Your task to perform on an android device: refresh tabs in the chrome app Image 0: 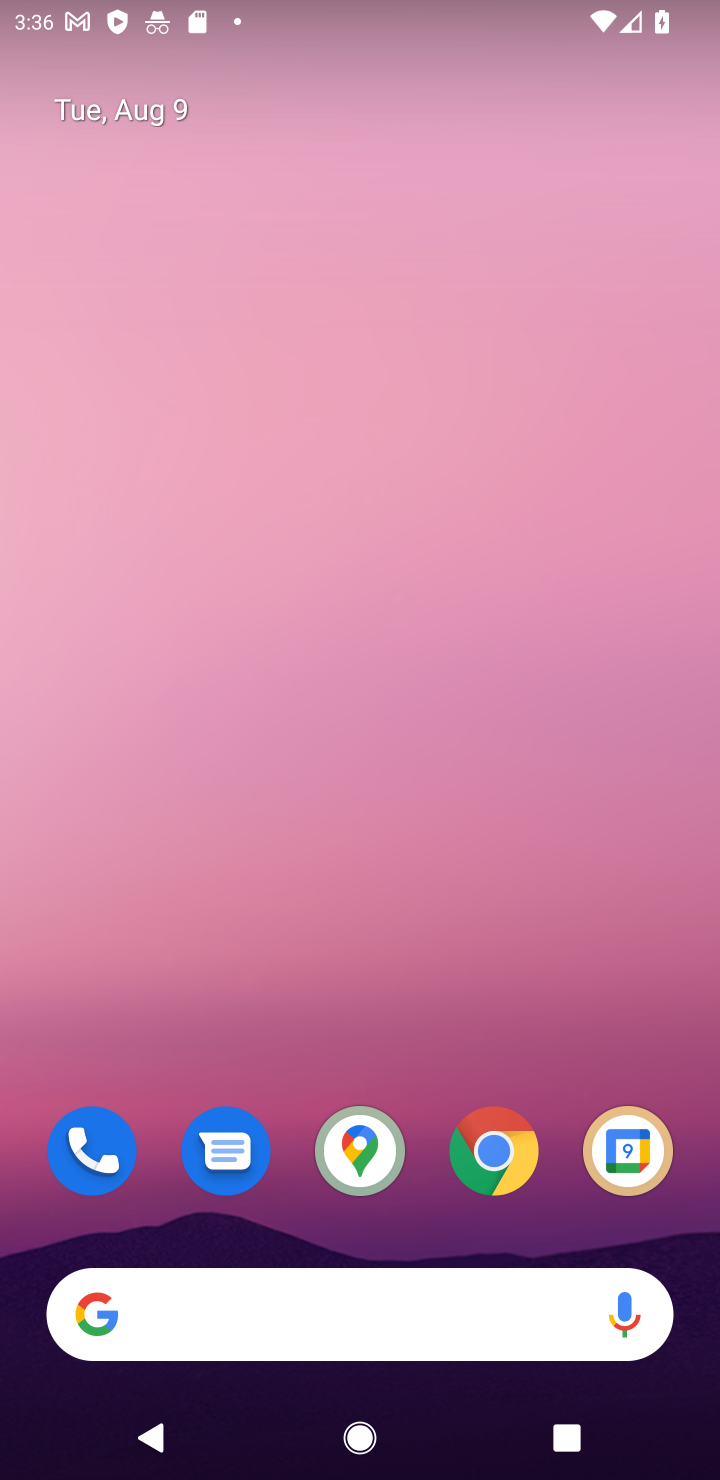
Step 0: click (485, 1153)
Your task to perform on an android device: refresh tabs in the chrome app Image 1: 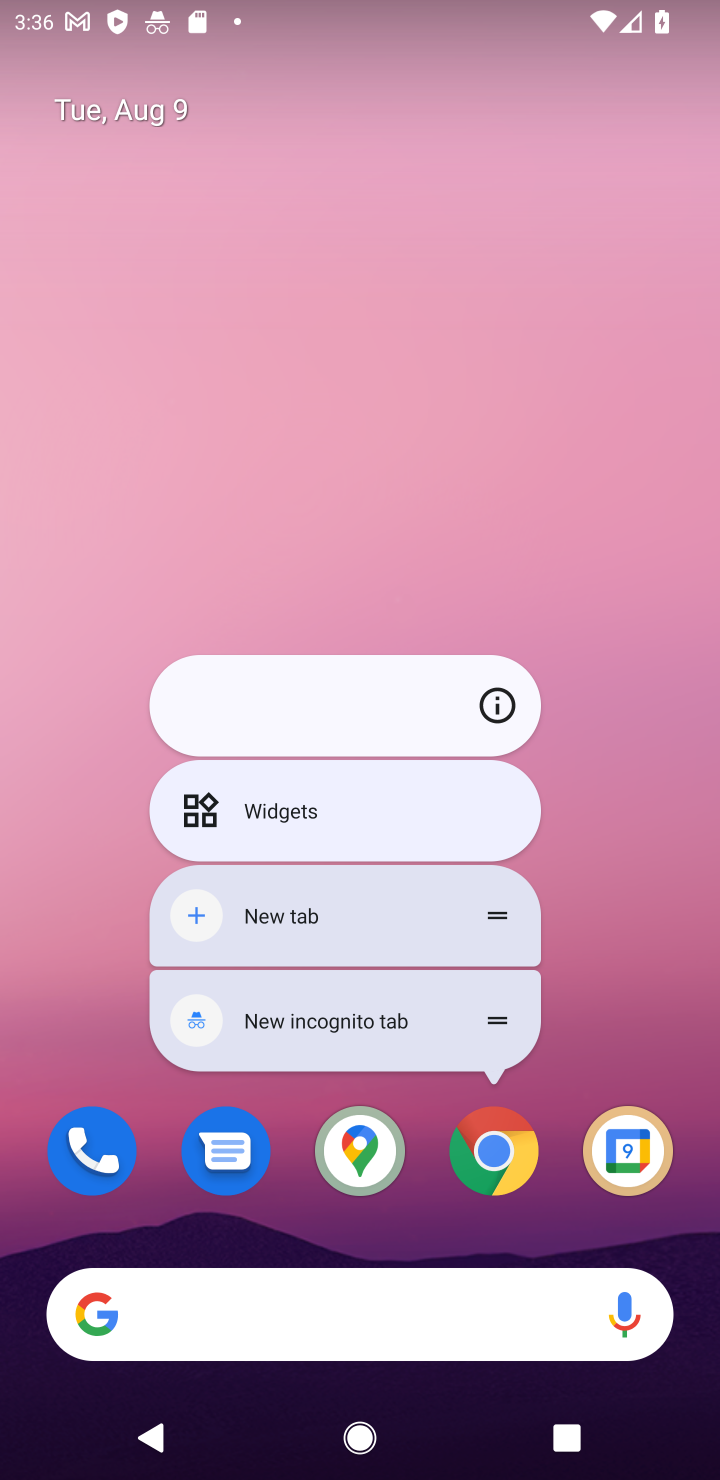
Step 1: click (485, 1153)
Your task to perform on an android device: refresh tabs in the chrome app Image 2: 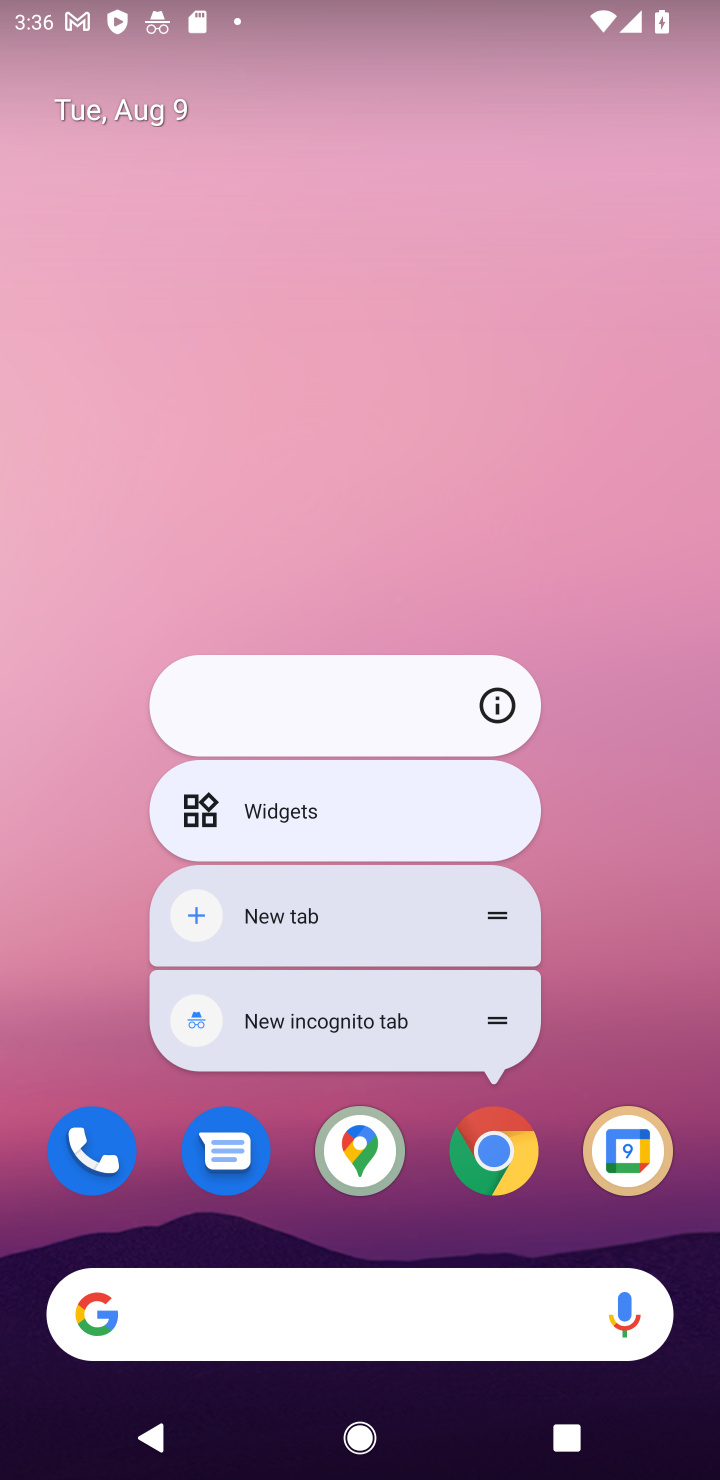
Step 2: click (499, 1160)
Your task to perform on an android device: refresh tabs in the chrome app Image 3: 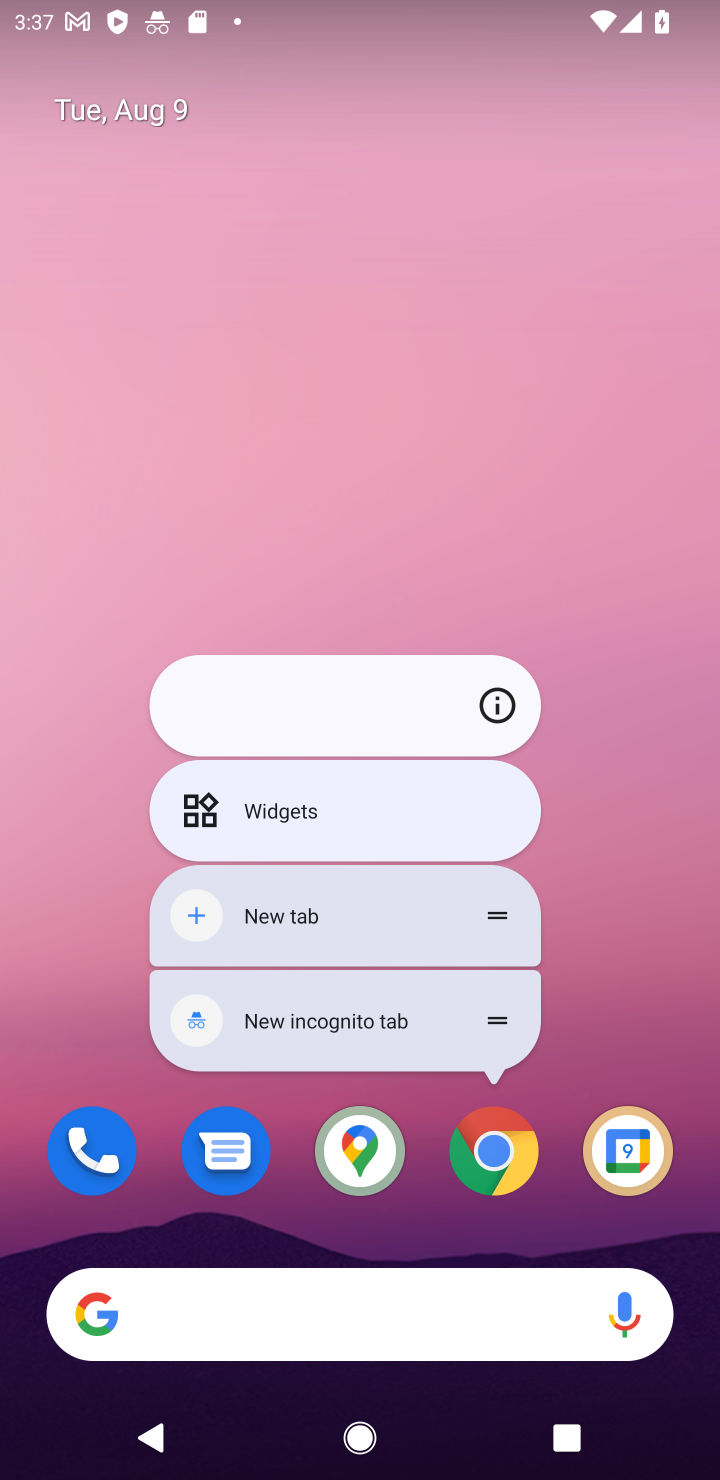
Step 3: click (499, 1160)
Your task to perform on an android device: refresh tabs in the chrome app Image 4: 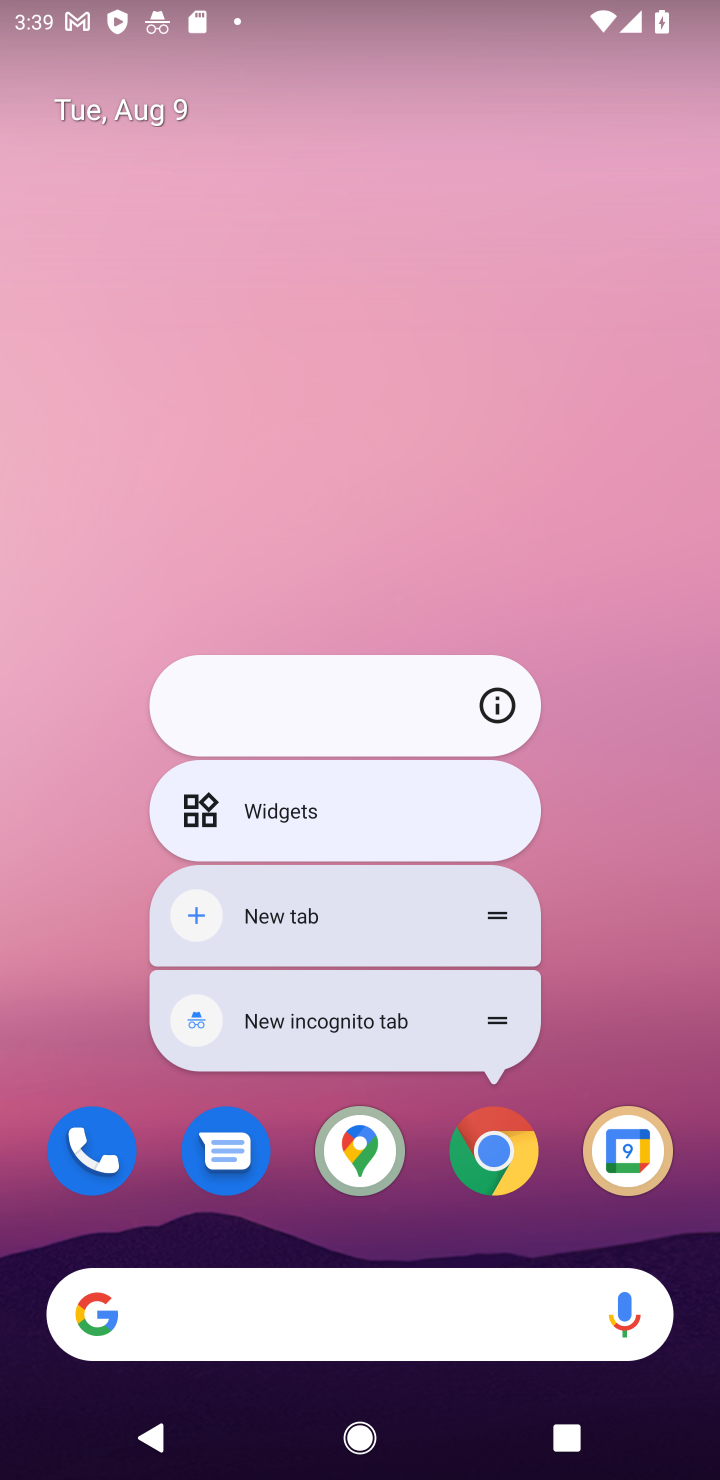
Step 4: click (473, 1127)
Your task to perform on an android device: refresh tabs in the chrome app Image 5: 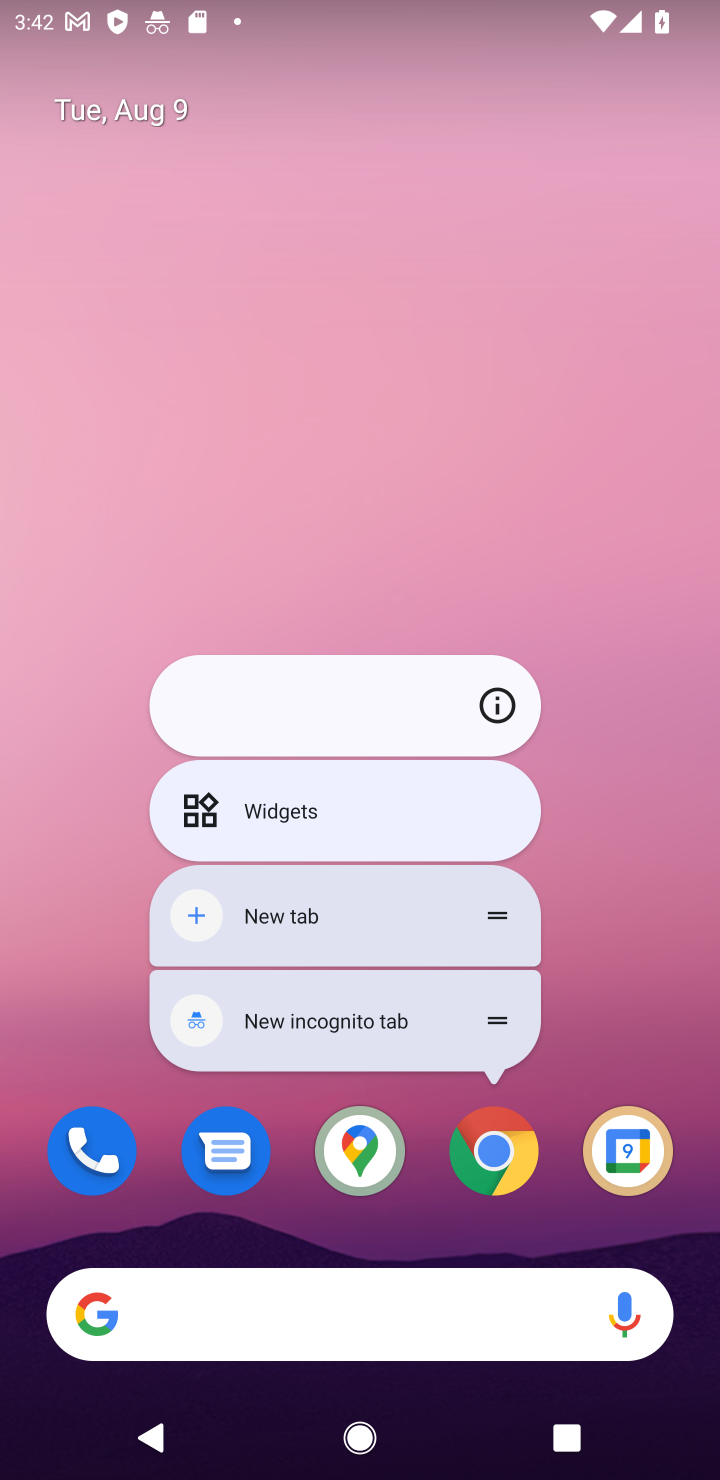
Step 5: click (498, 1150)
Your task to perform on an android device: refresh tabs in the chrome app Image 6: 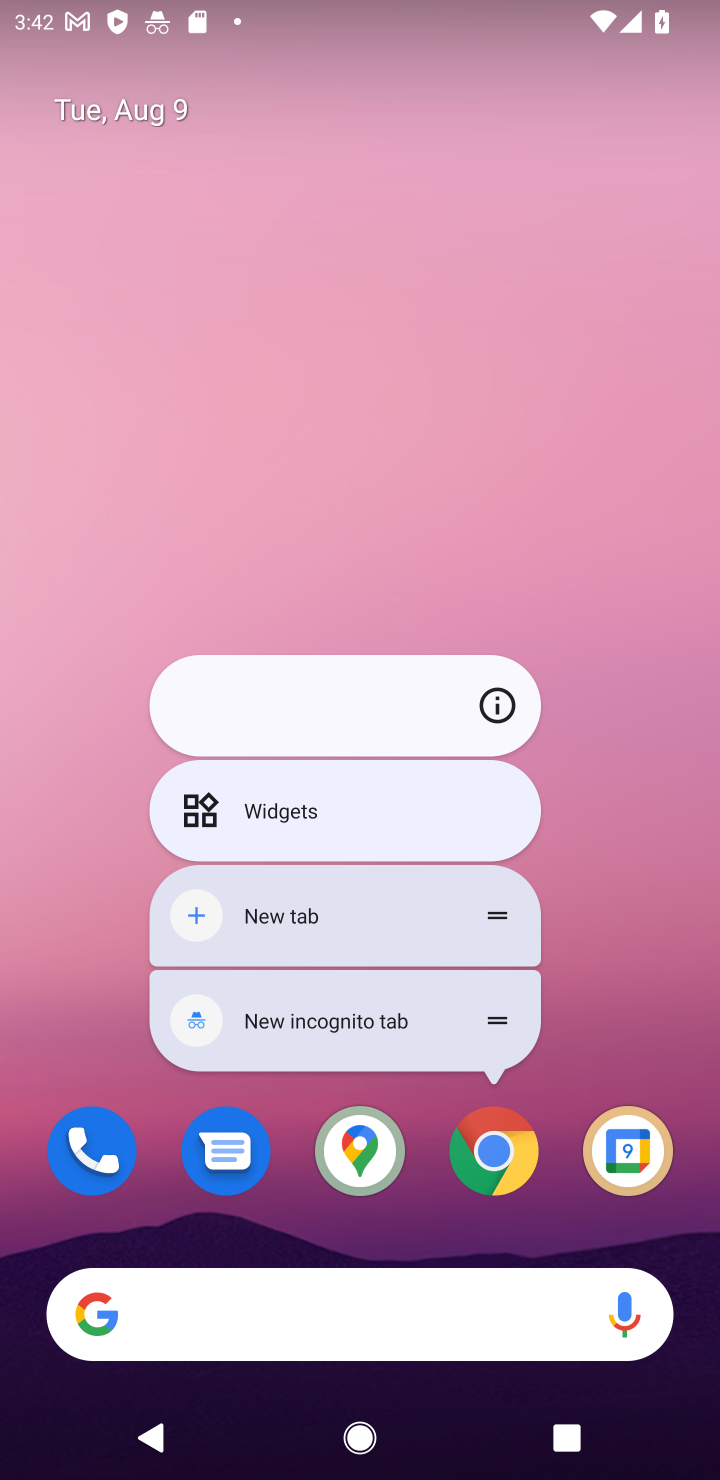
Step 6: click (498, 1150)
Your task to perform on an android device: refresh tabs in the chrome app Image 7: 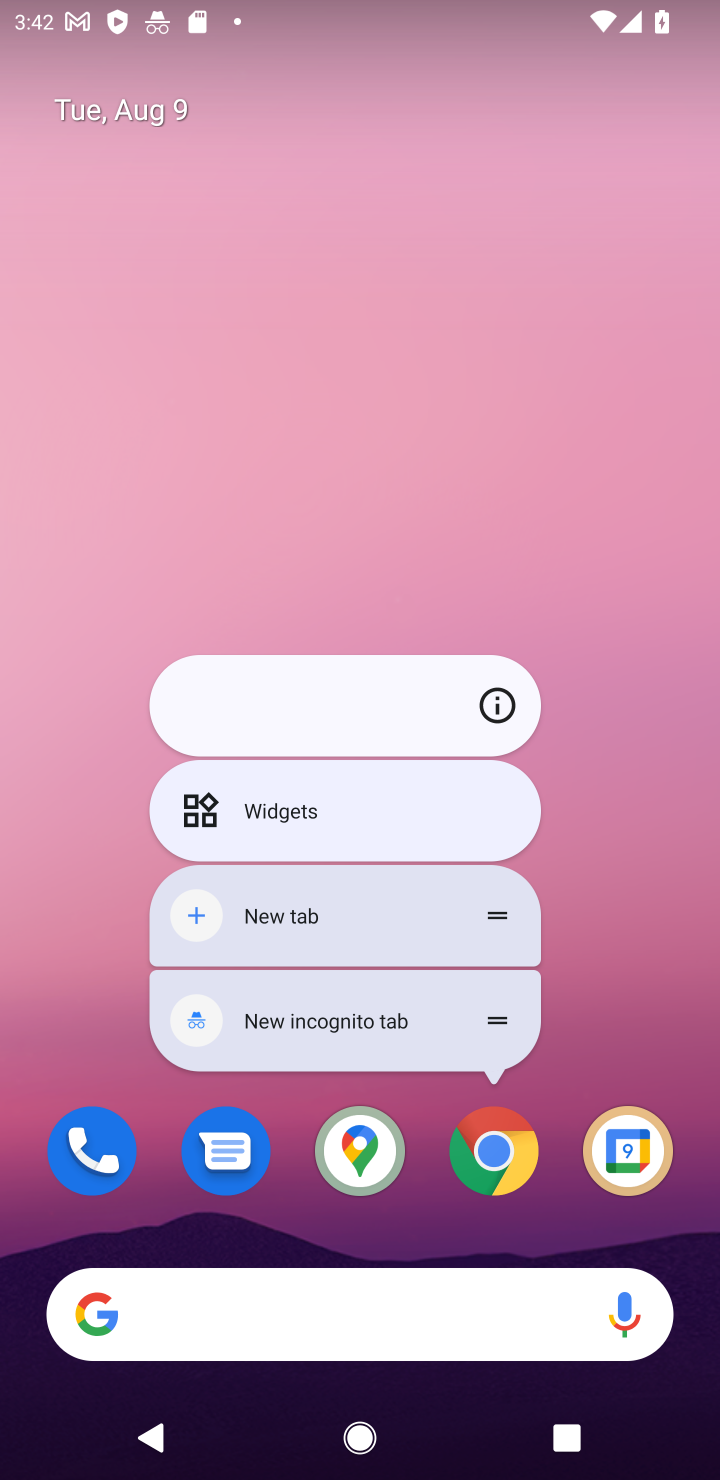
Step 7: click (498, 1150)
Your task to perform on an android device: refresh tabs in the chrome app Image 8: 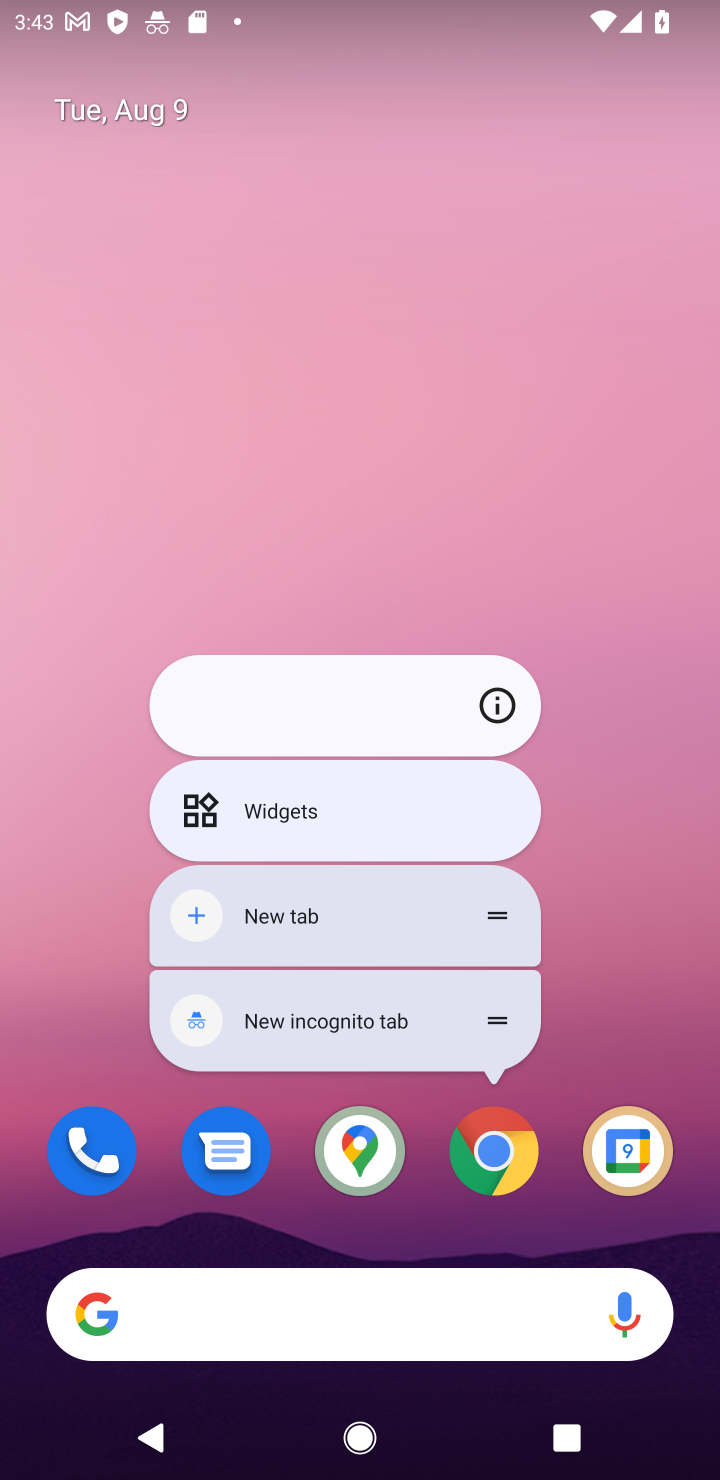
Step 8: click (498, 1150)
Your task to perform on an android device: refresh tabs in the chrome app Image 9: 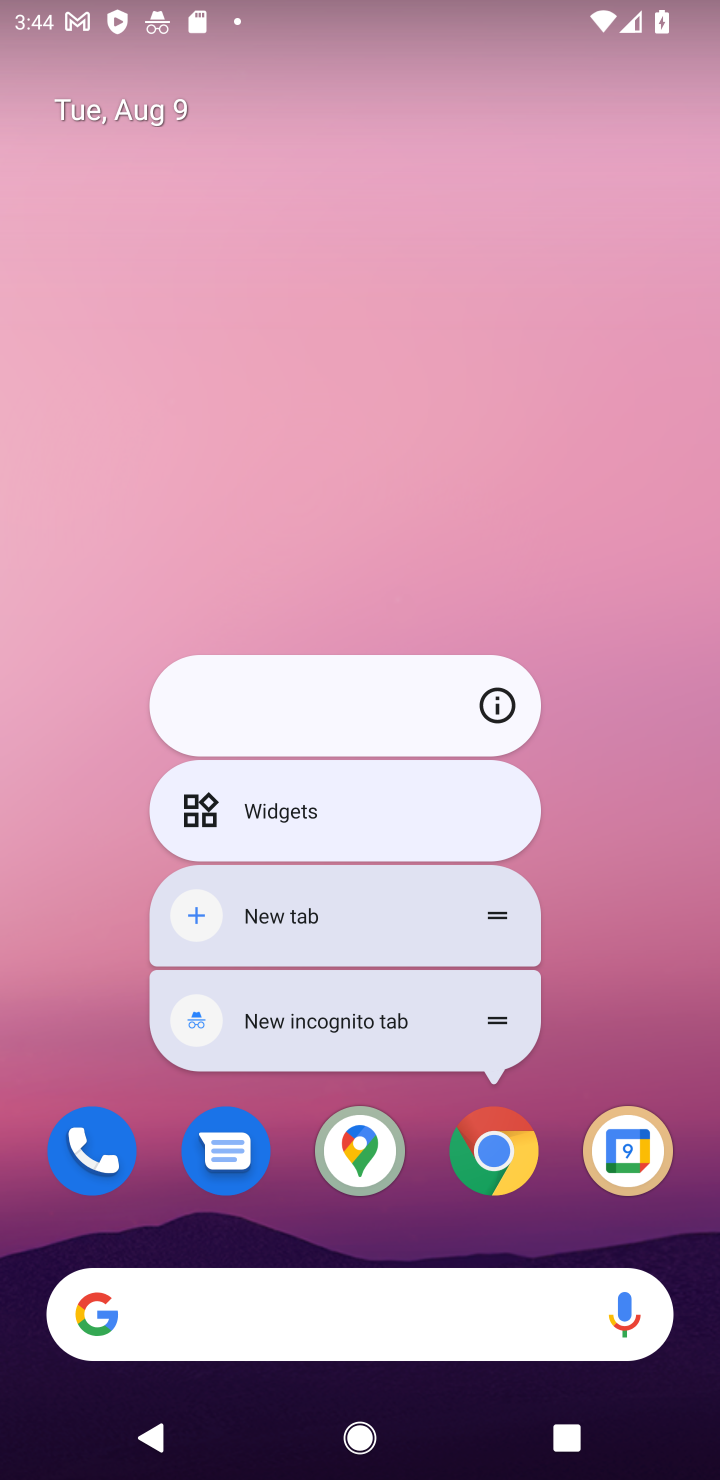
Step 9: click (487, 1142)
Your task to perform on an android device: refresh tabs in the chrome app Image 10: 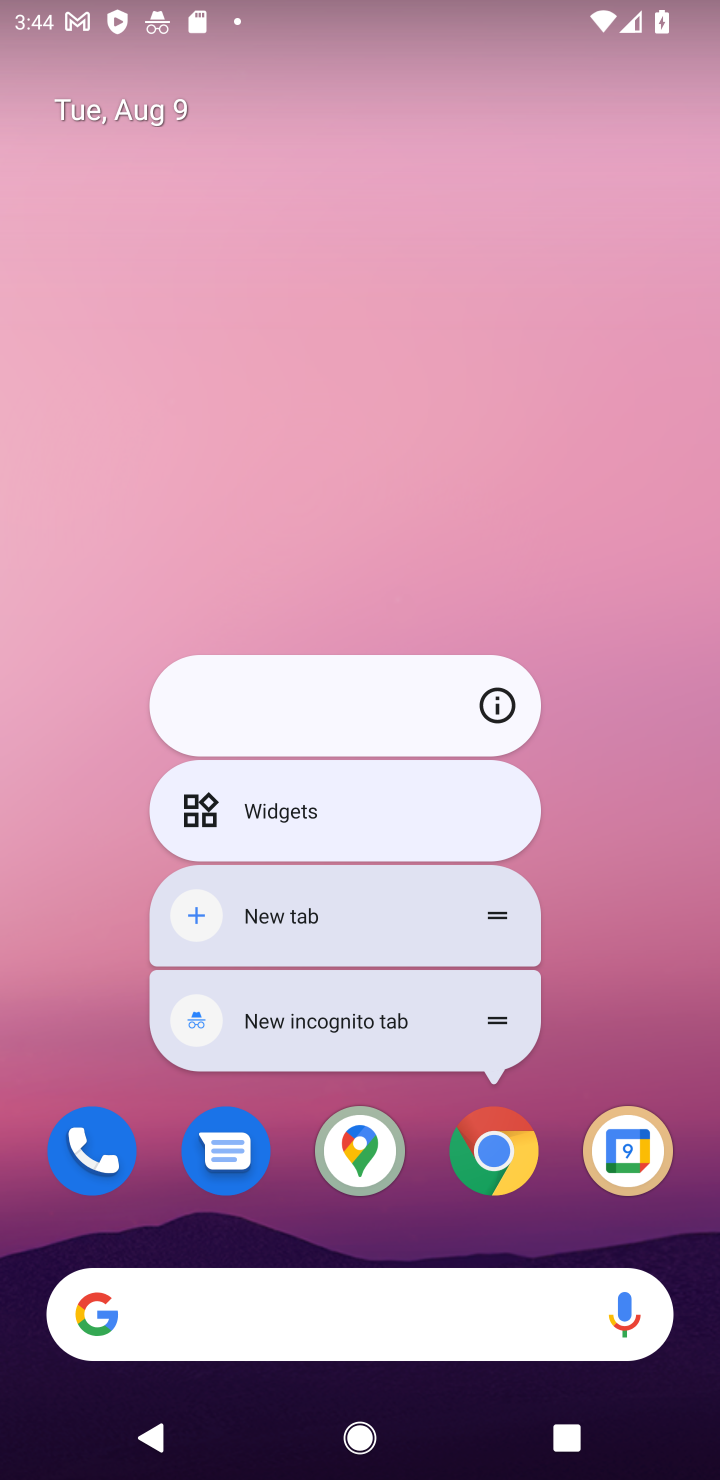
Step 10: click (487, 1142)
Your task to perform on an android device: refresh tabs in the chrome app Image 11: 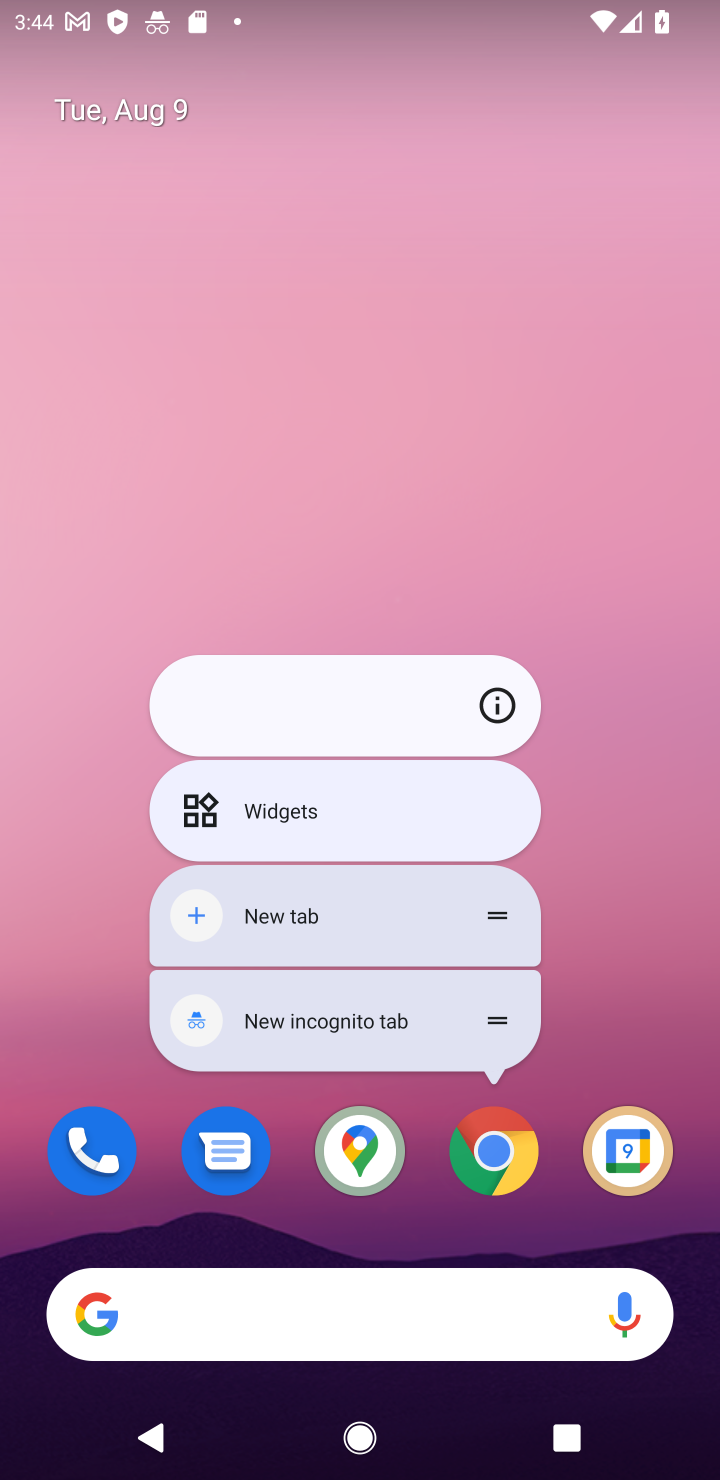
Step 11: click (487, 1168)
Your task to perform on an android device: refresh tabs in the chrome app Image 12: 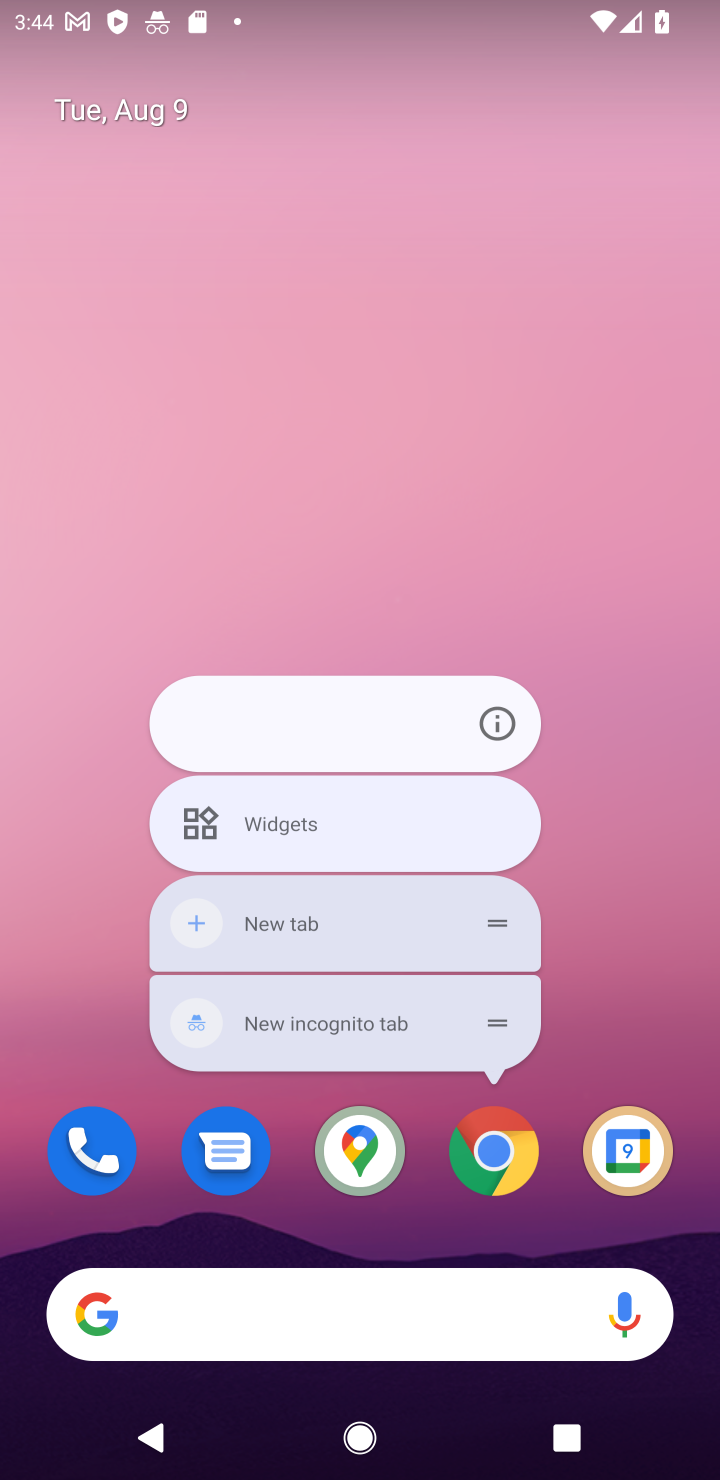
Step 12: click (487, 1168)
Your task to perform on an android device: refresh tabs in the chrome app Image 13: 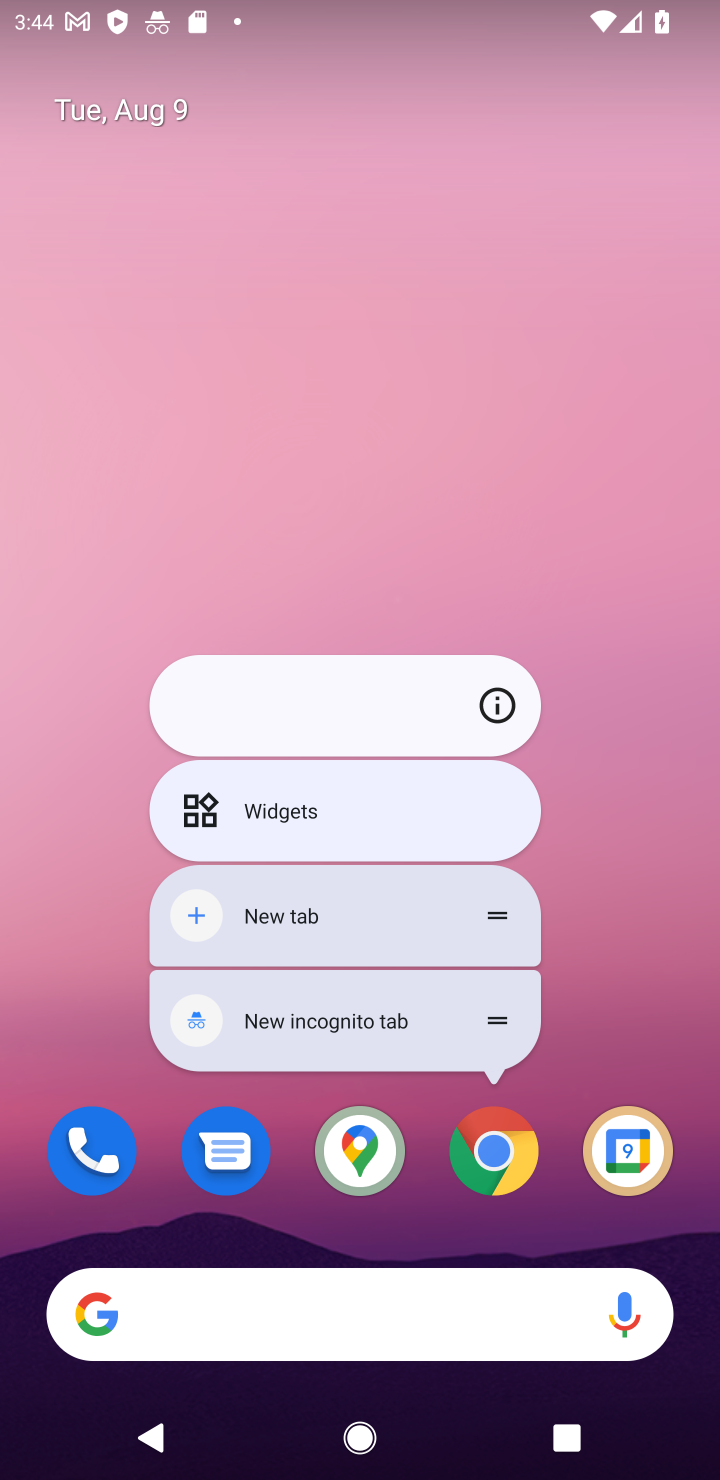
Step 13: click (487, 1168)
Your task to perform on an android device: refresh tabs in the chrome app Image 14: 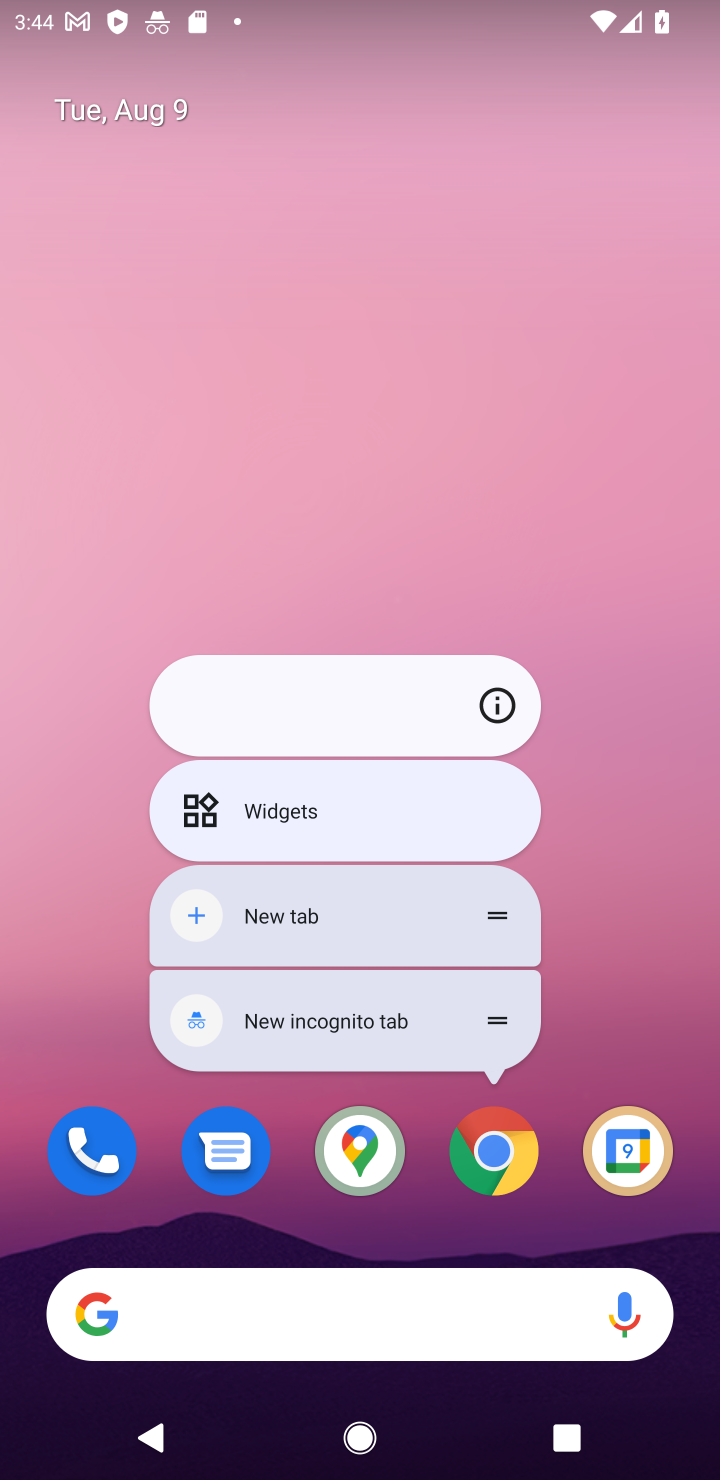
Step 14: click (487, 1168)
Your task to perform on an android device: refresh tabs in the chrome app Image 15: 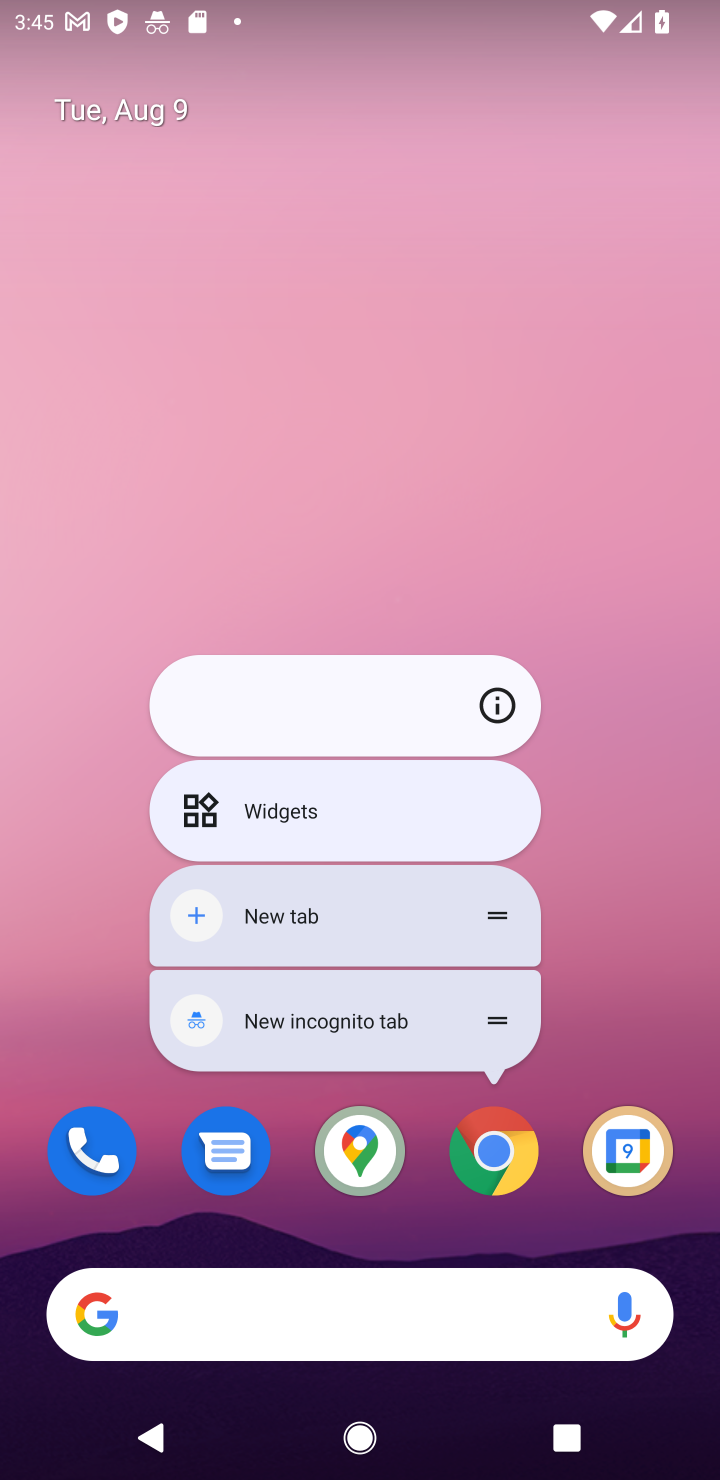
Step 15: click (443, 1159)
Your task to perform on an android device: refresh tabs in the chrome app Image 16: 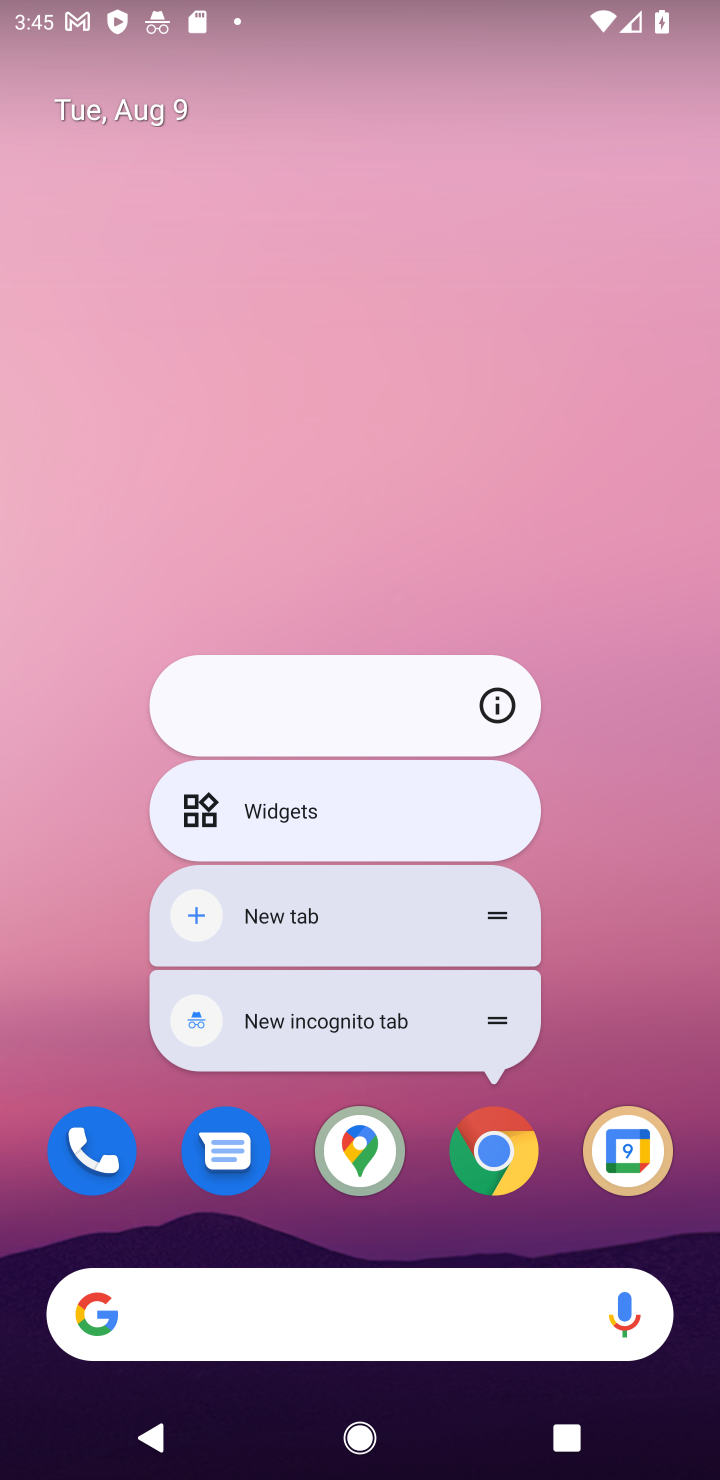
Step 16: click (443, 1159)
Your task to perform on an android device: refresh tabs in the chrome app Image 17: 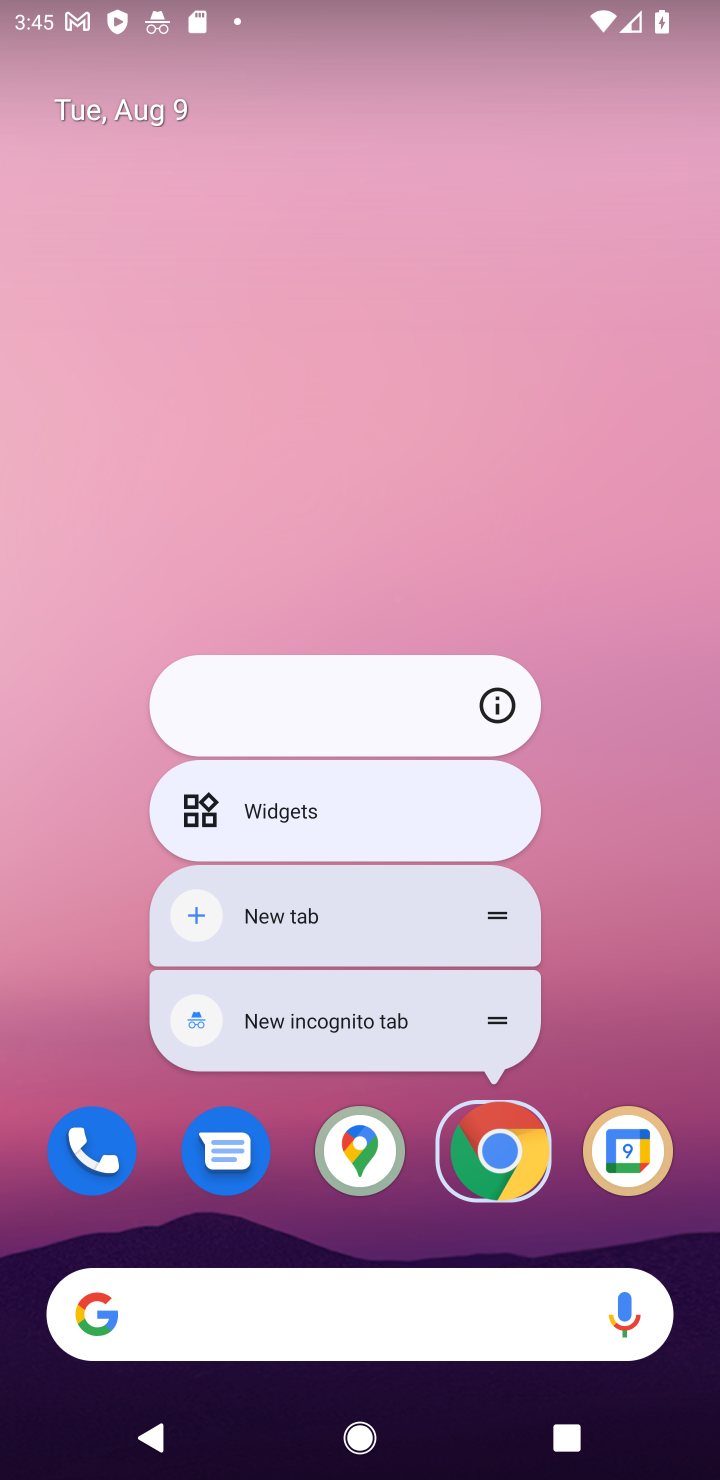
Step 17: click (523, 1159)
Your task to perform on an android device: refresh tabs in the chrome app Image 18: 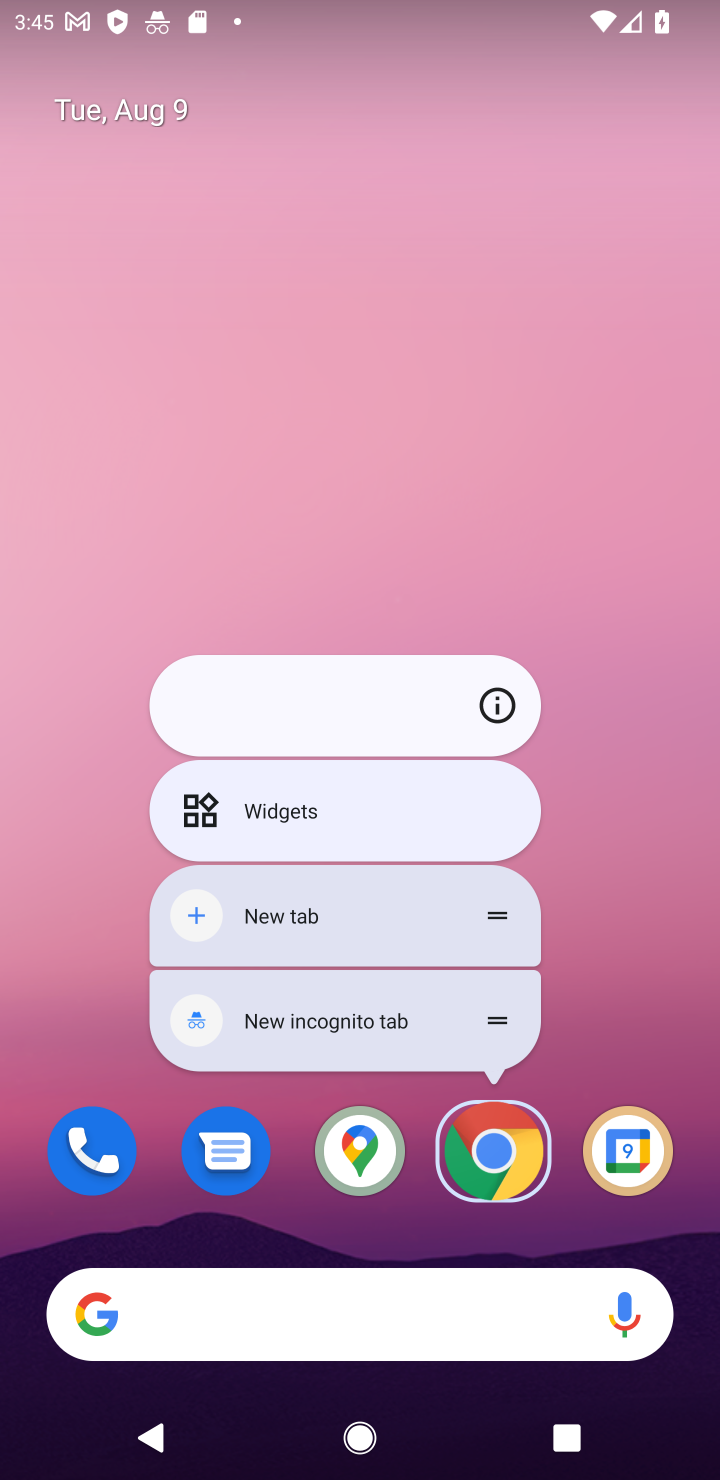
Step 18: click (519, 1159)
Your task to perform on an android device: refresh tabs in the chrome app Image 19: 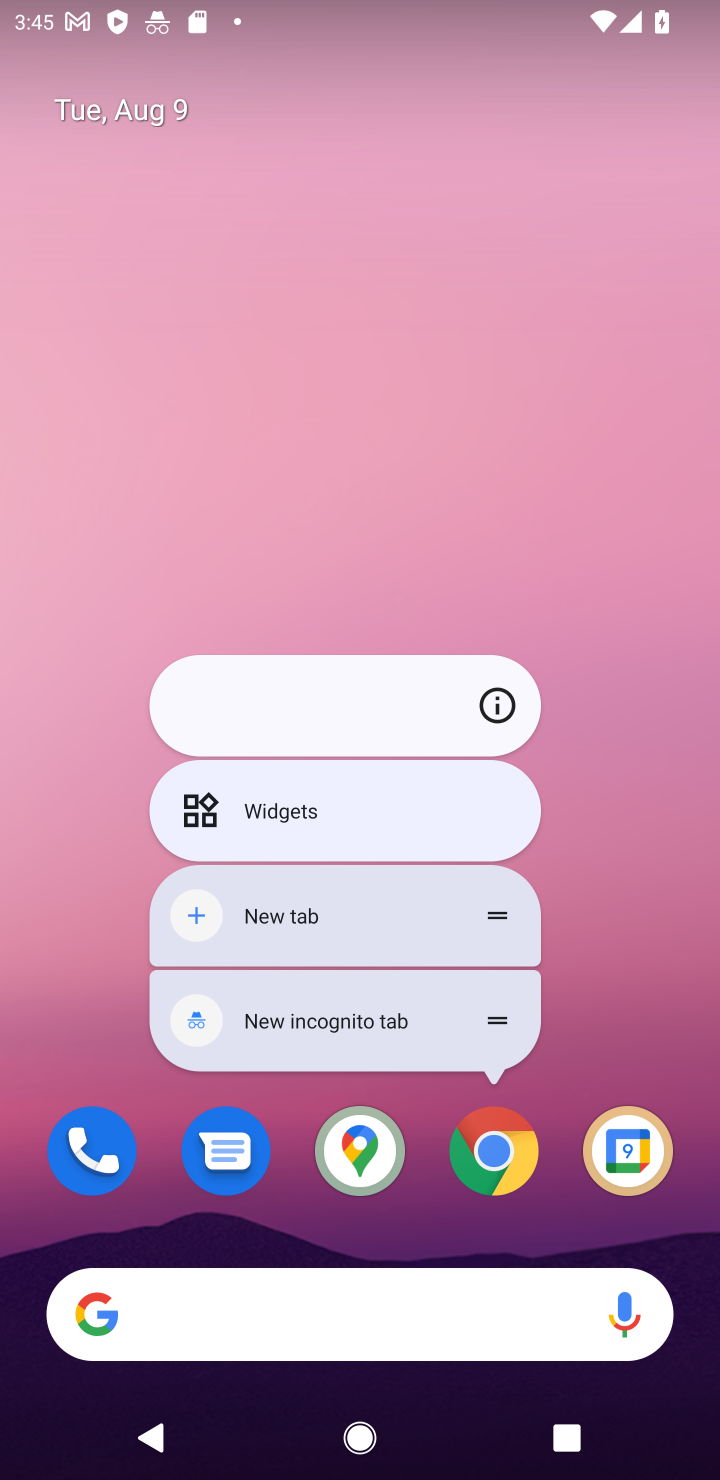
Step 19: click (519, 1159)
Your task to perform on an android device: refresh tabs in the chrome app Image 20: 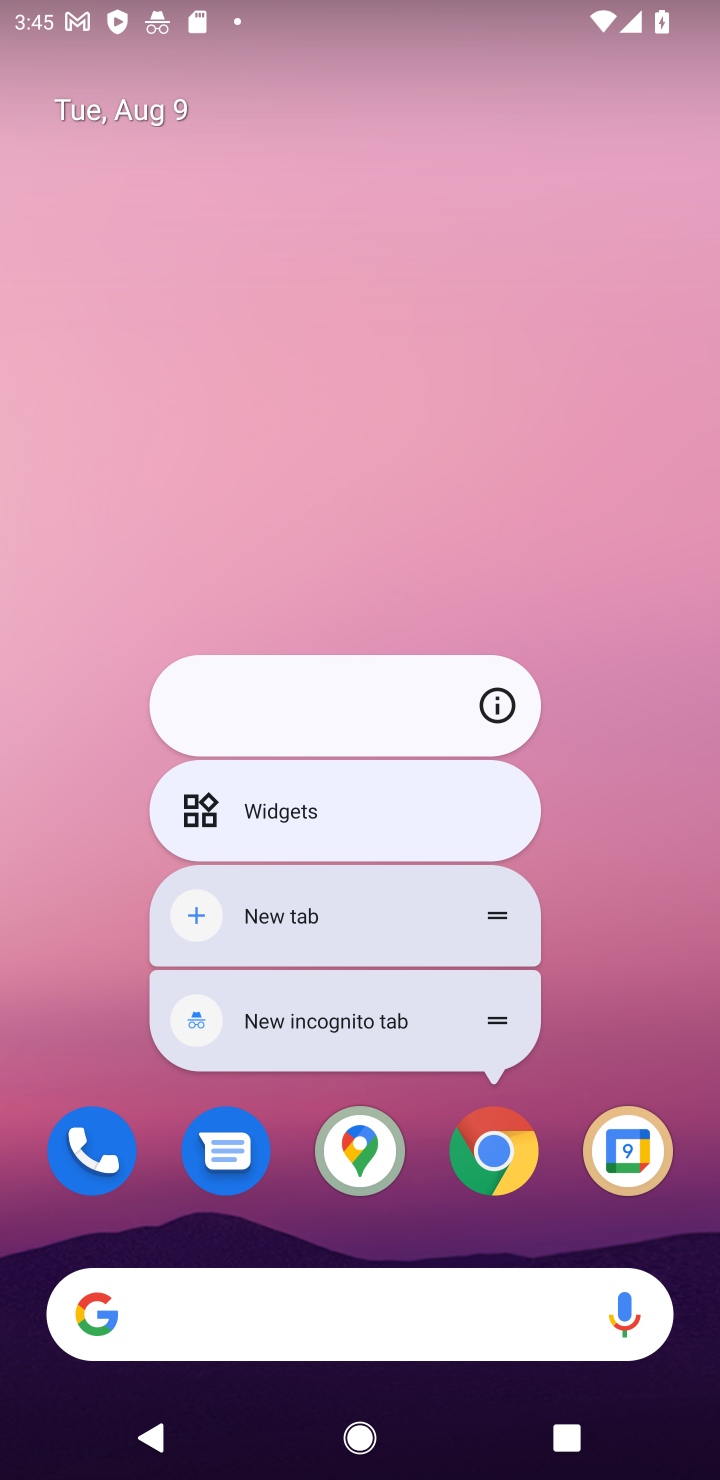
Step 20: click (519, 1159)
Your task to perform on an android device: refresh tabs in the chrome app Image 21: 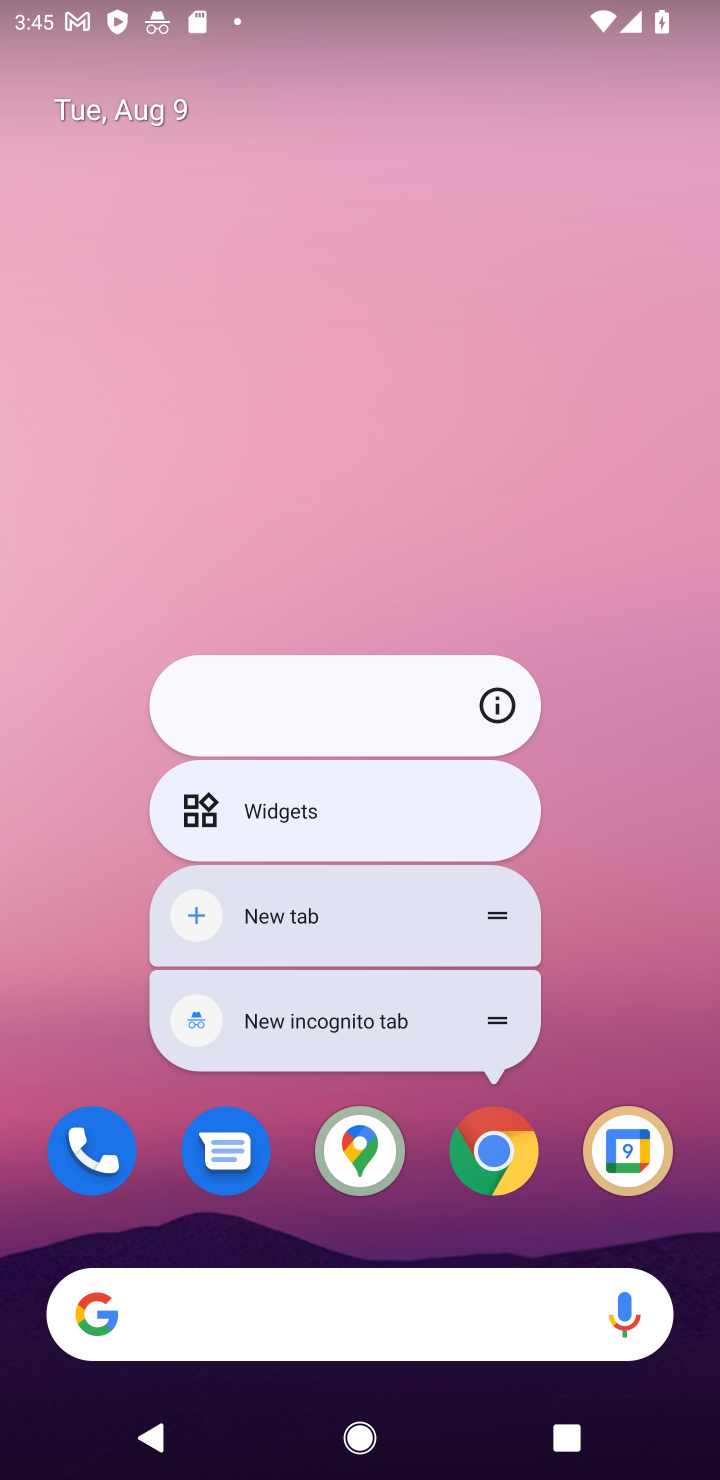
Step 21: click (519, 1159)
Your task to perform on an android device: refresh tabs in the chrome app Image 22: 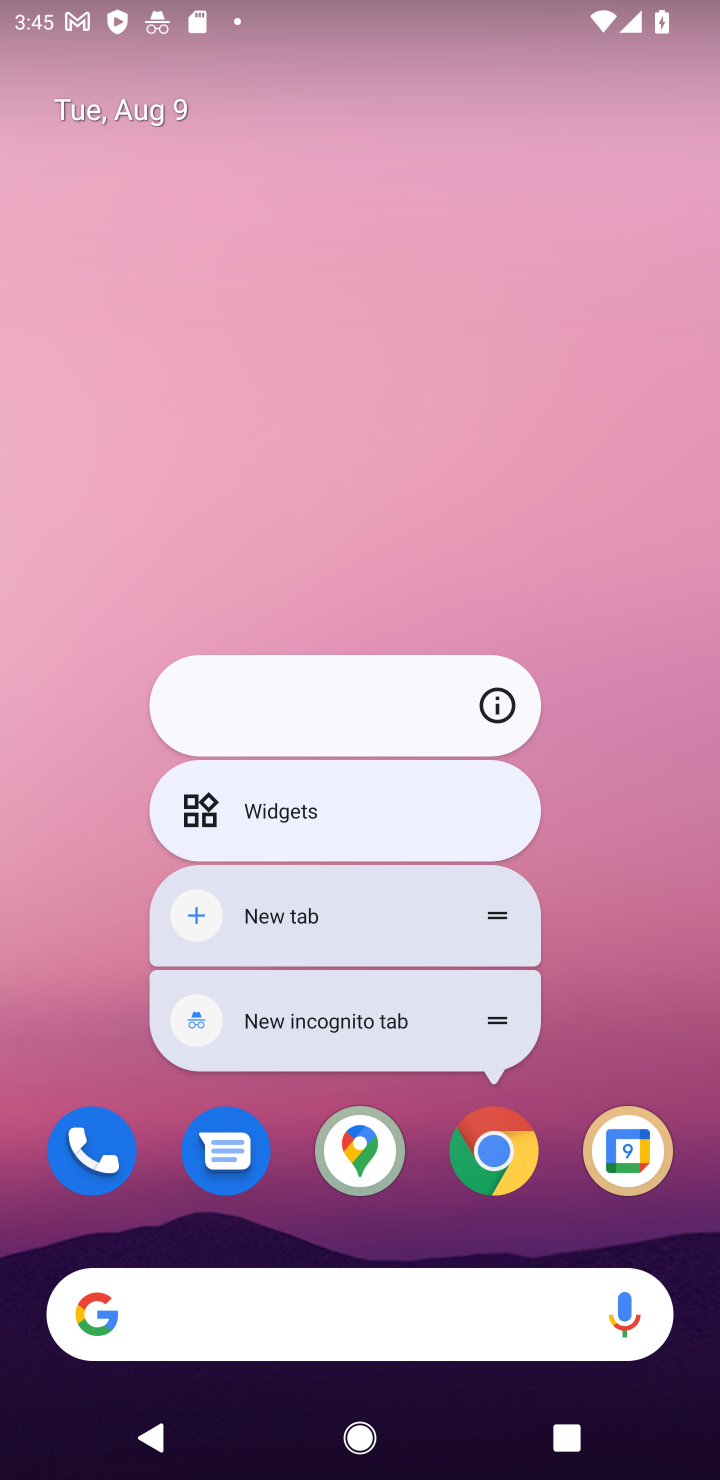
Step 22: click (519, 1159)
Your task to perform on an android device: refresh tabs in the chrome app Image 23: 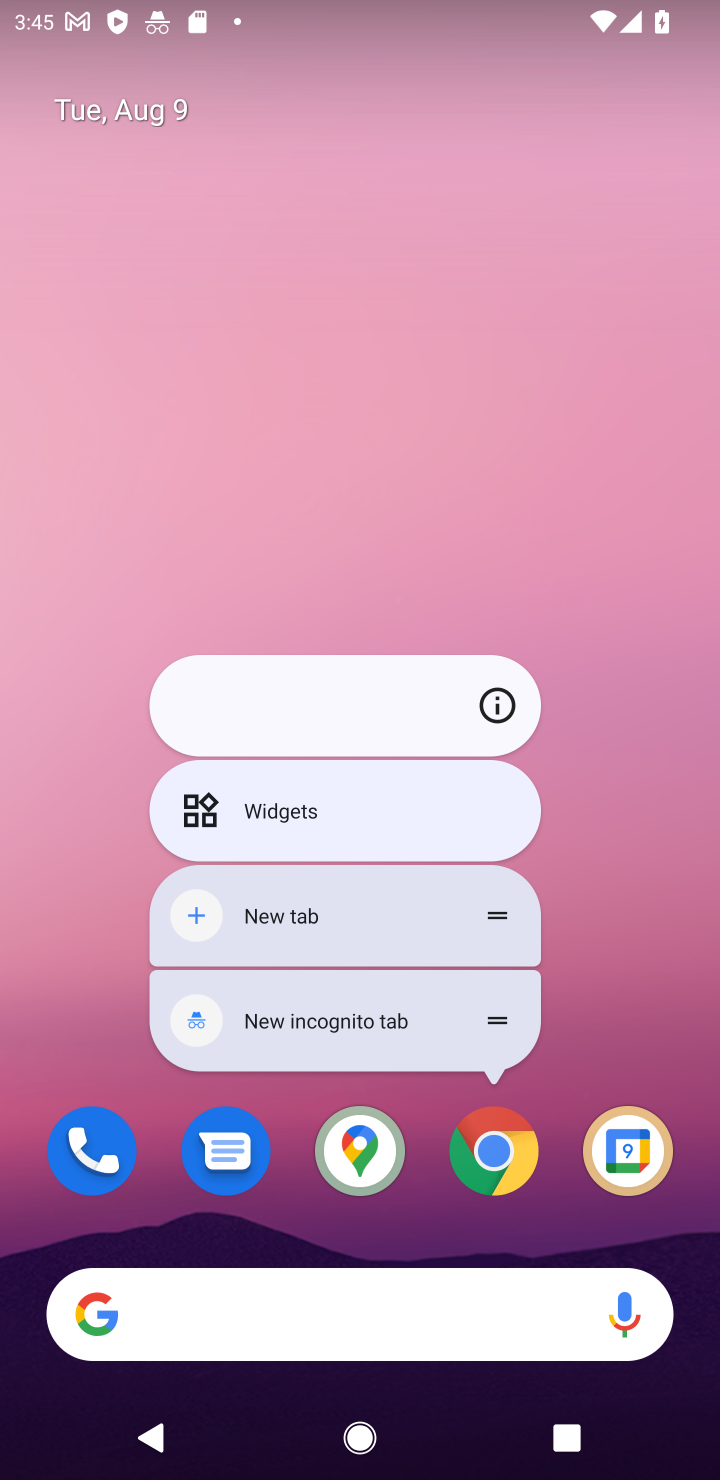
Step 23: click (519, 1159)
Your task to perform on an android device: refresh tabs in the chrome app Image 24: 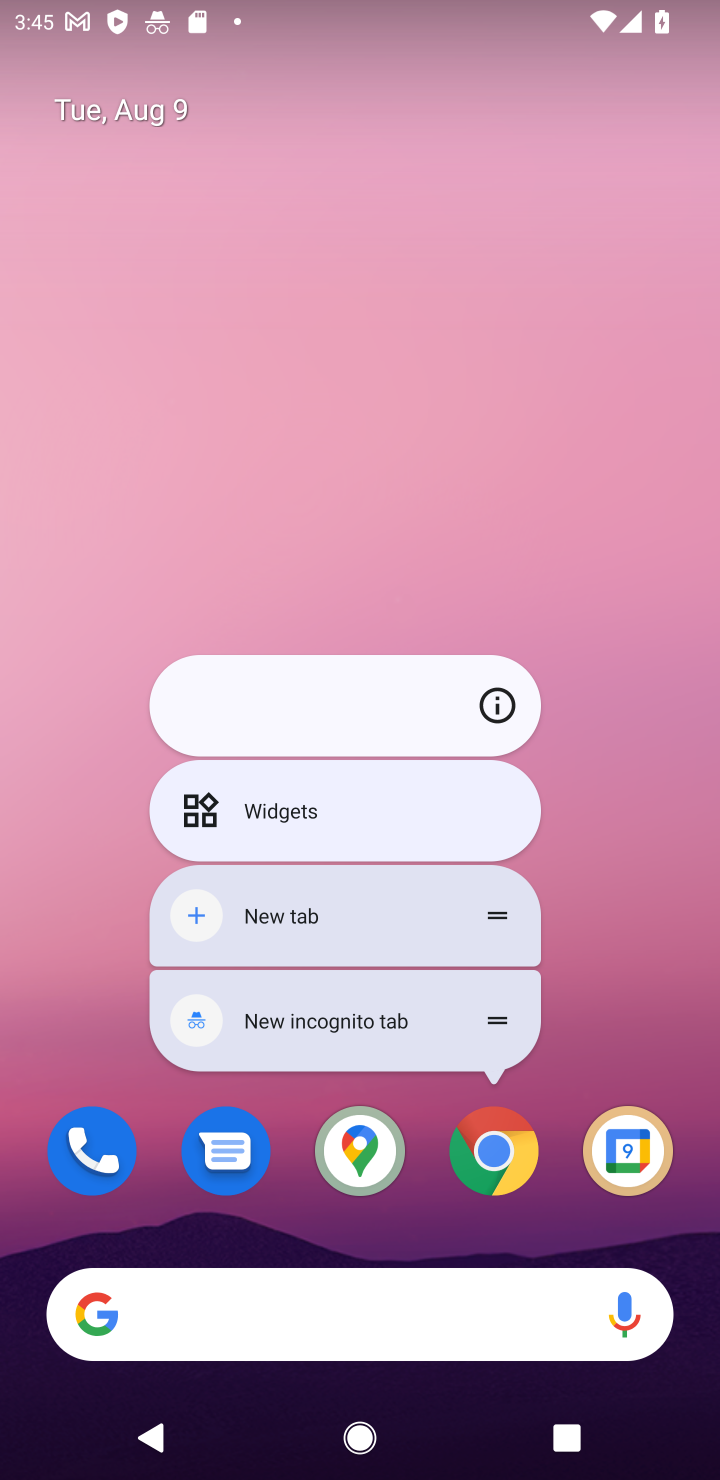
Step 24: click (519, 1159)
Your task to perform on an android device: refresh tabs in the chrome app Image 25: 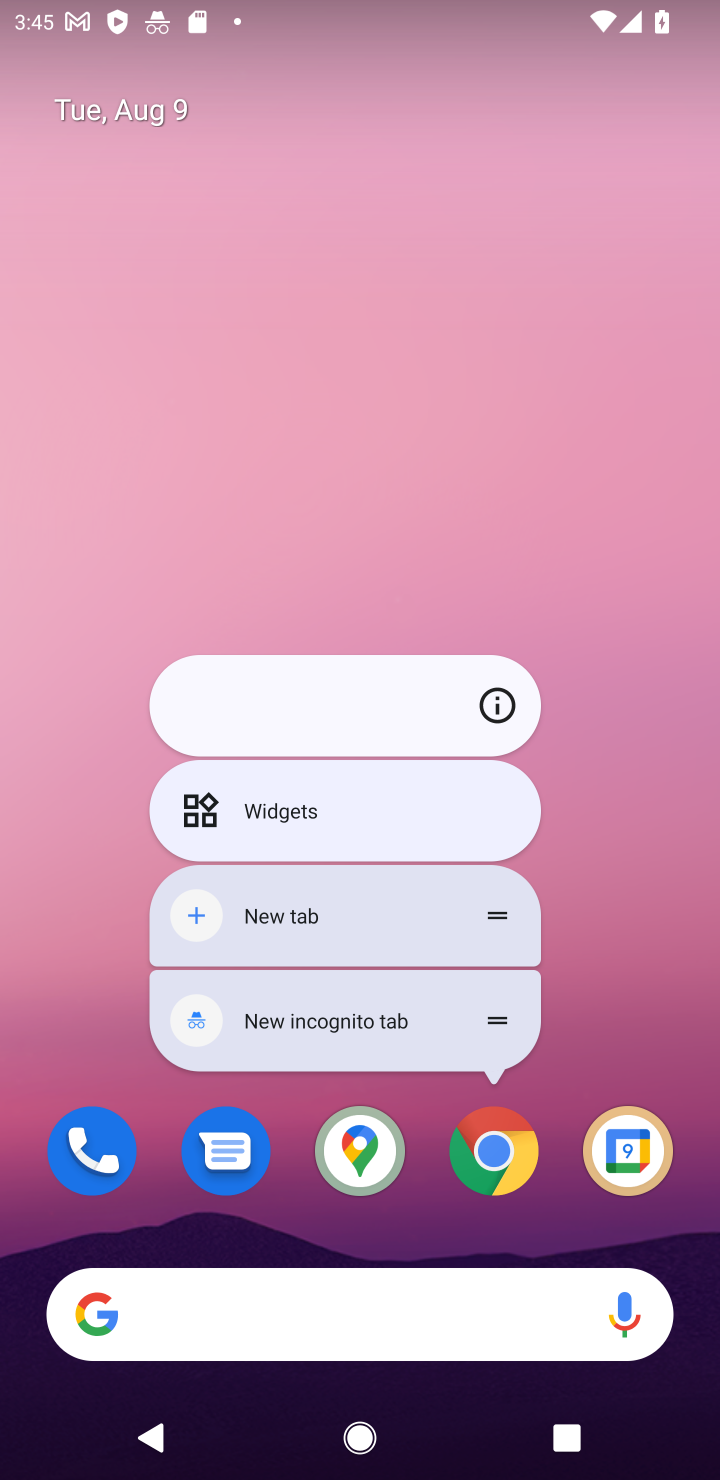
Step 25: click (519, 1159)
Your task to perform on an android device: refresh tabs in the chrome app Image 26: 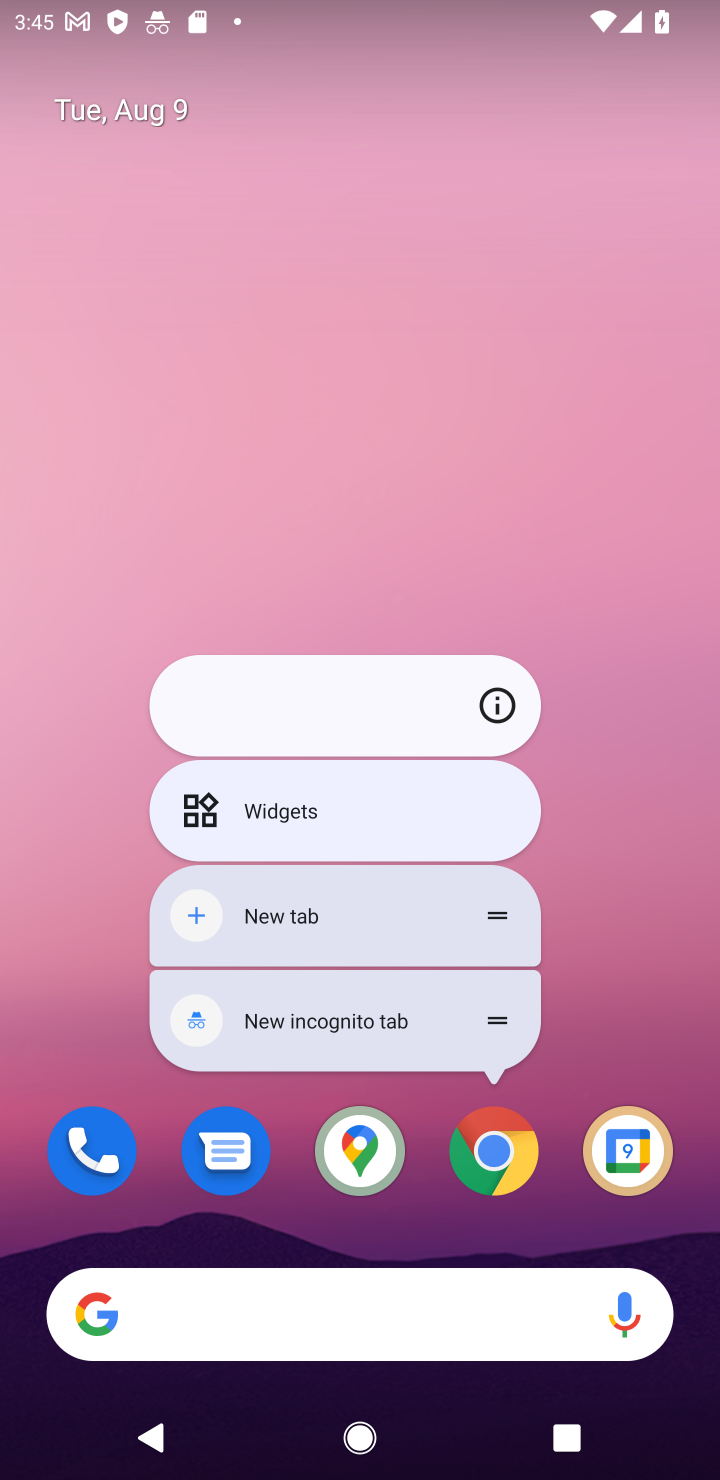
Step 26: click (519, 1159)
Your task to perform on an android device: refresh tabs in the chrome app Image 27: 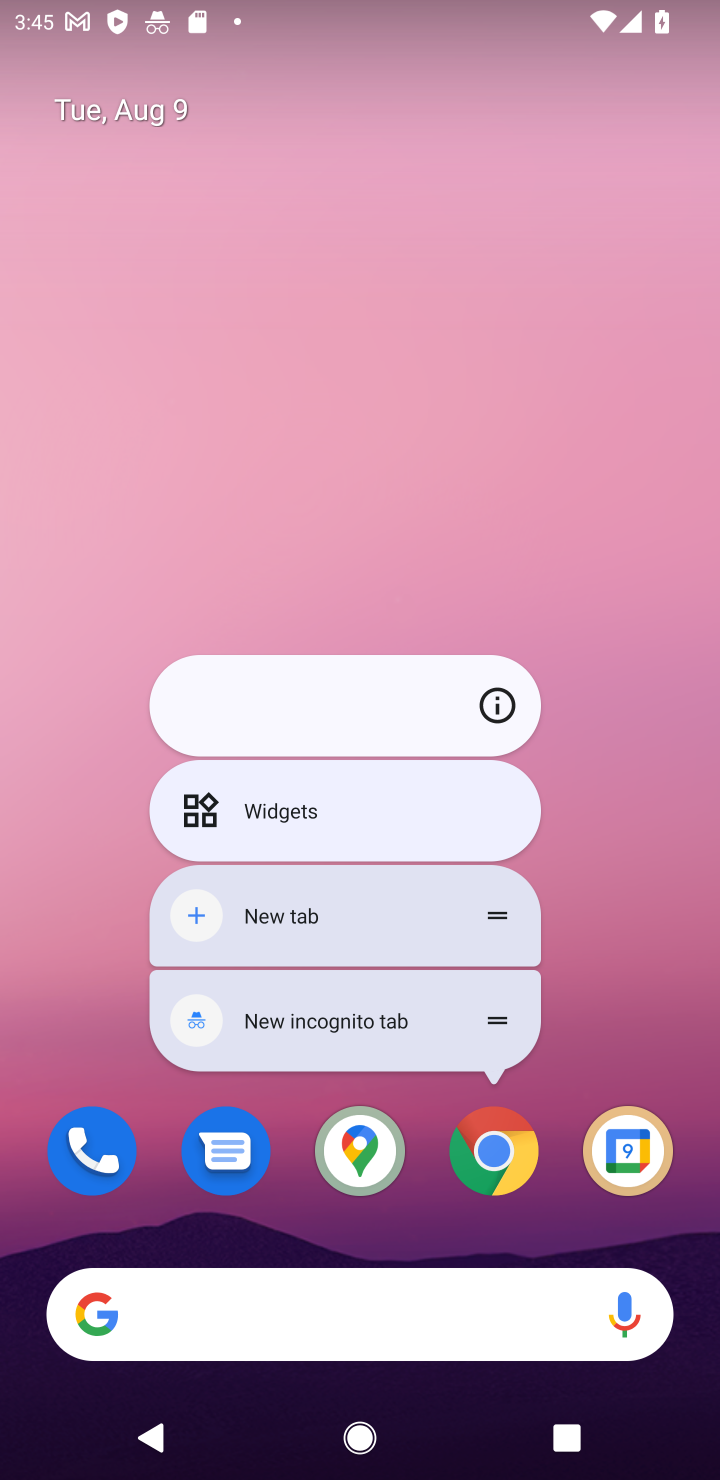
Step 27: click (519, 1159)
Your task to perform on an android device: refresh tabs in the chrome app Image 28: 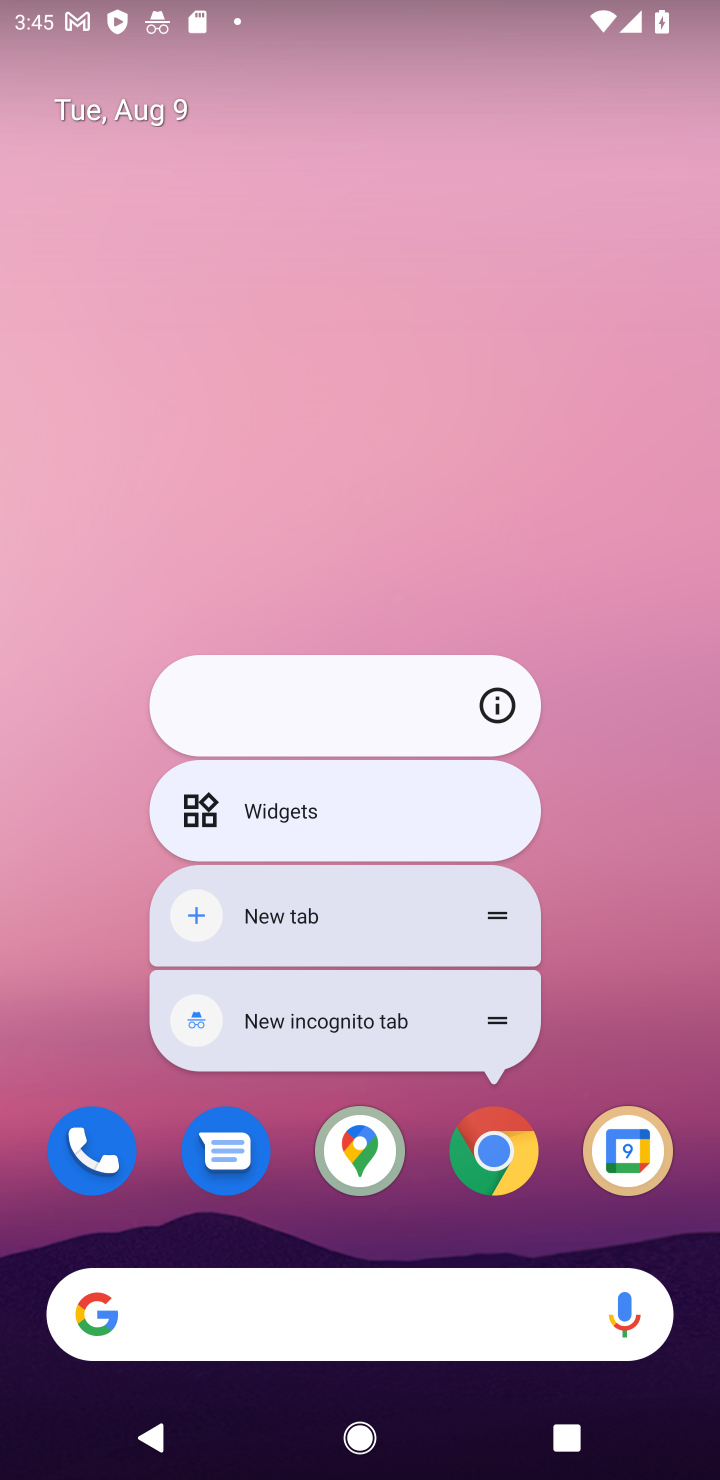
Step 28: click (519, 1159)
Your task to perform on an android device: refresh tabs in the chrome app Image 29: 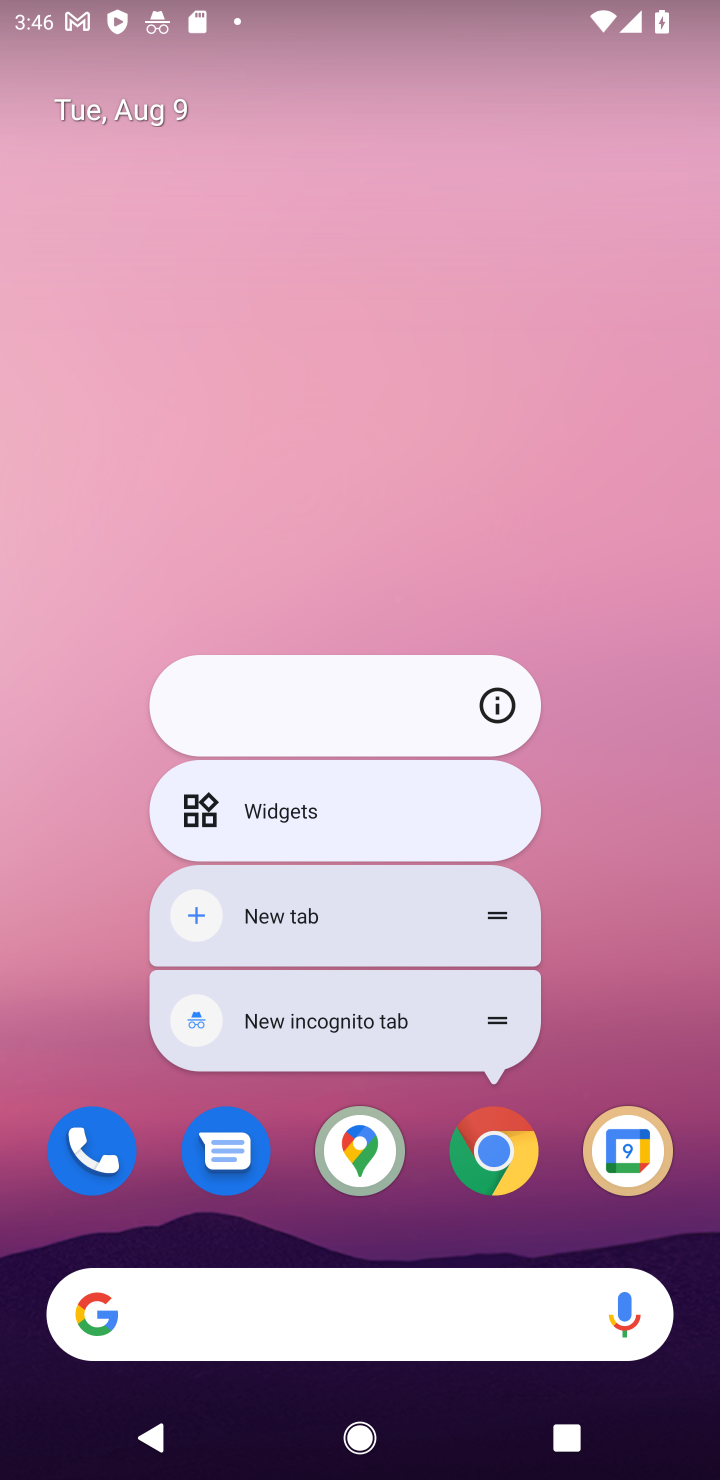
Step 29: click (487, 1155)
Your task to perform on an android device: refresh tabs in the chrome app Image 30: 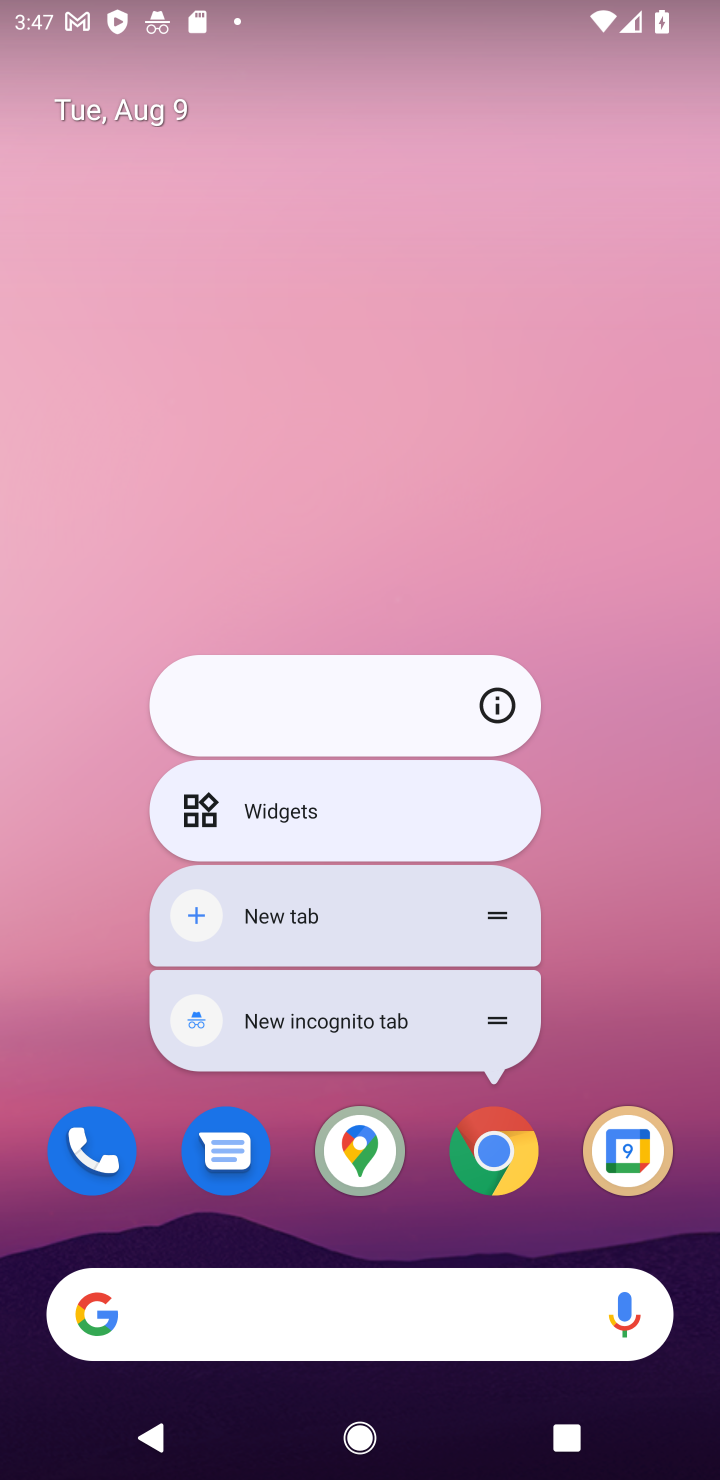
Step 30: click (490, 1157)
Your task to perform on an android device: refresh tabs in the chrome app Image 31: 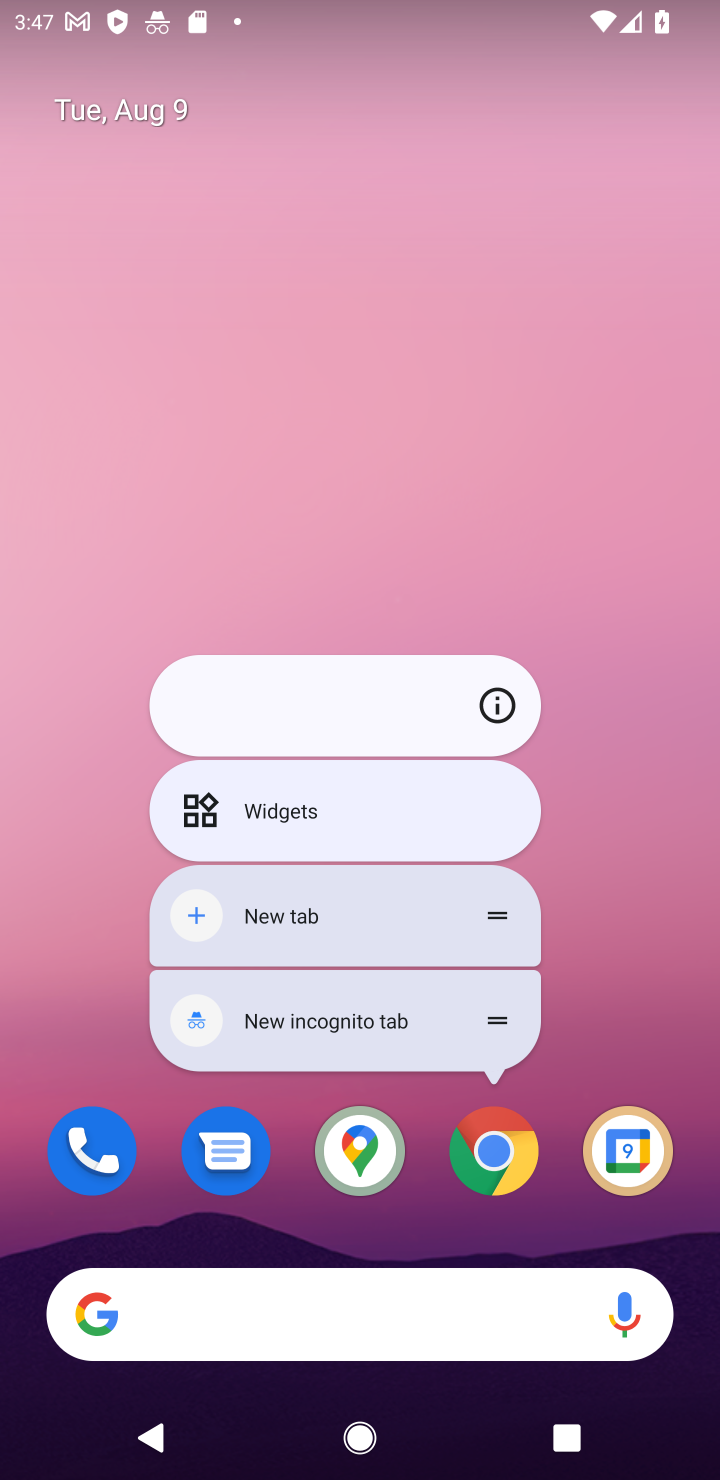
Step 31: click (490, 1157)
Your task to perform on an android device: refresh tabs in the chrome app Image 32: 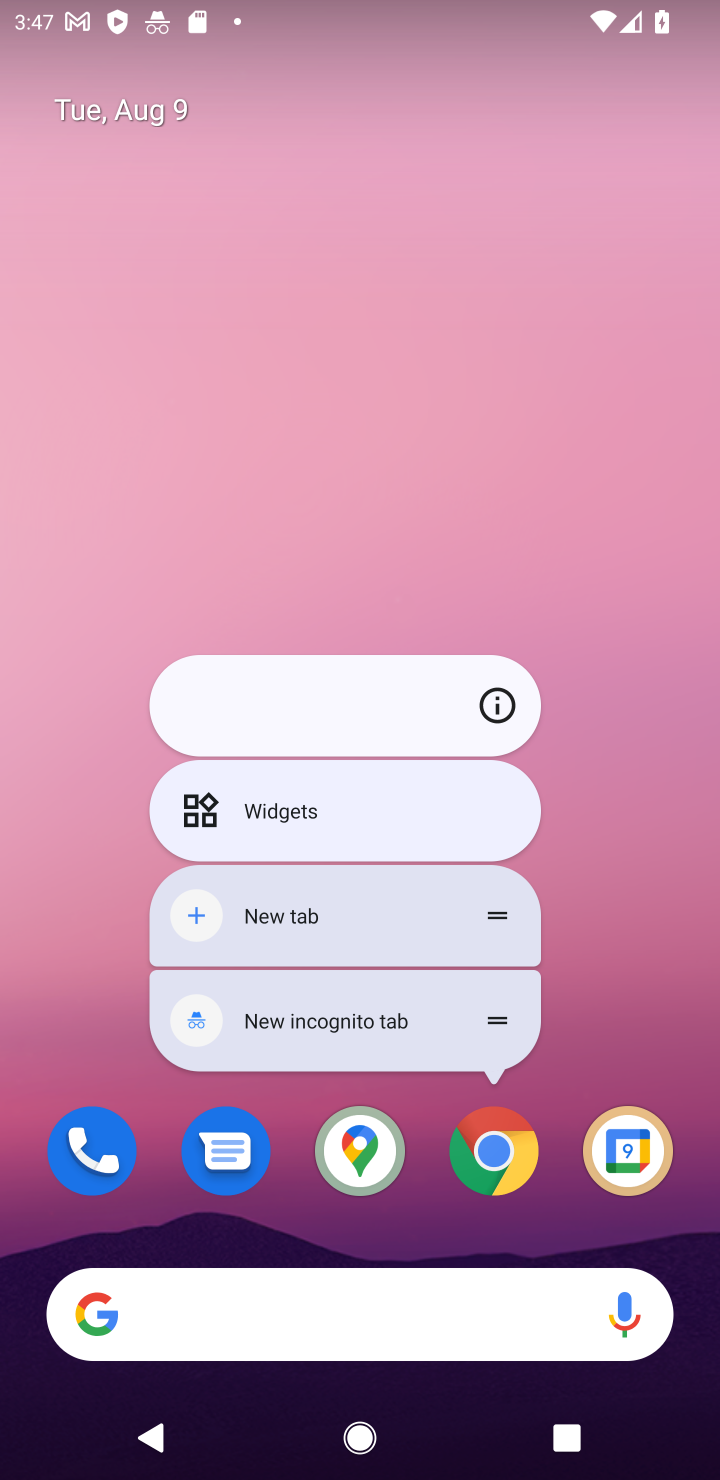
Step 32: click (490, 1157)
Your task to perform on an android device: refresh tabs in the chrome app Image 33: 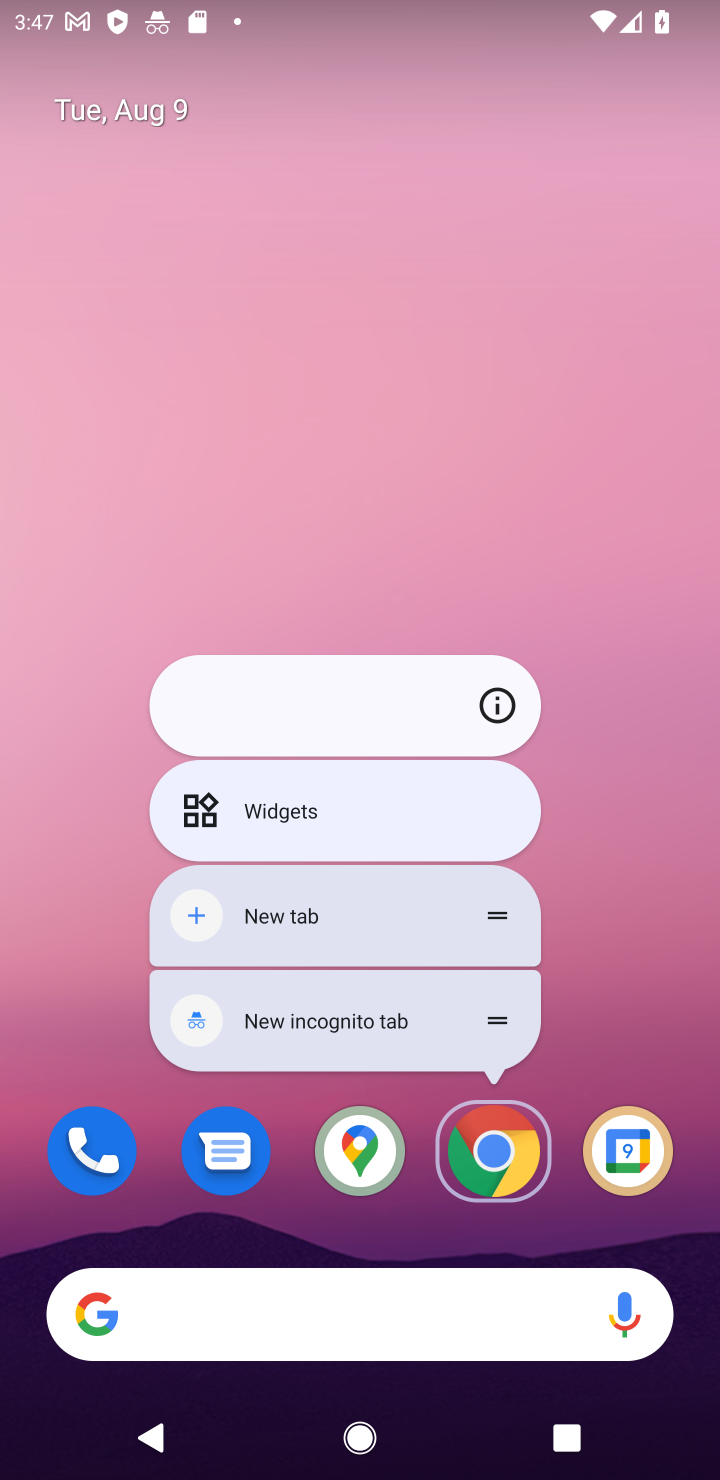
Step 33: click (490, 1157)
Your task to perform on an android device: refresh tabs in the chrome app Image 34: 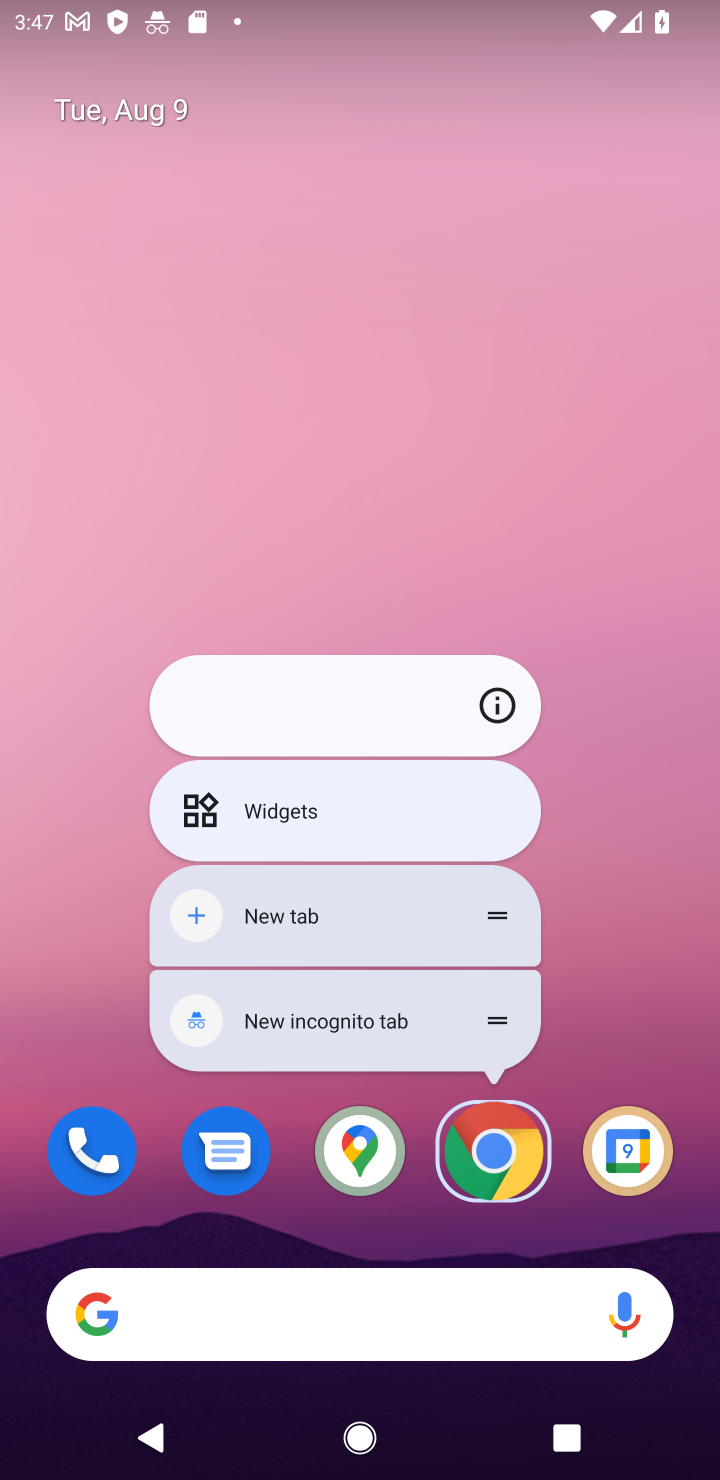
Step 34: click (490, 1157)
Your task to perform on an android device: refresh tabs in the chrome app Image 35: 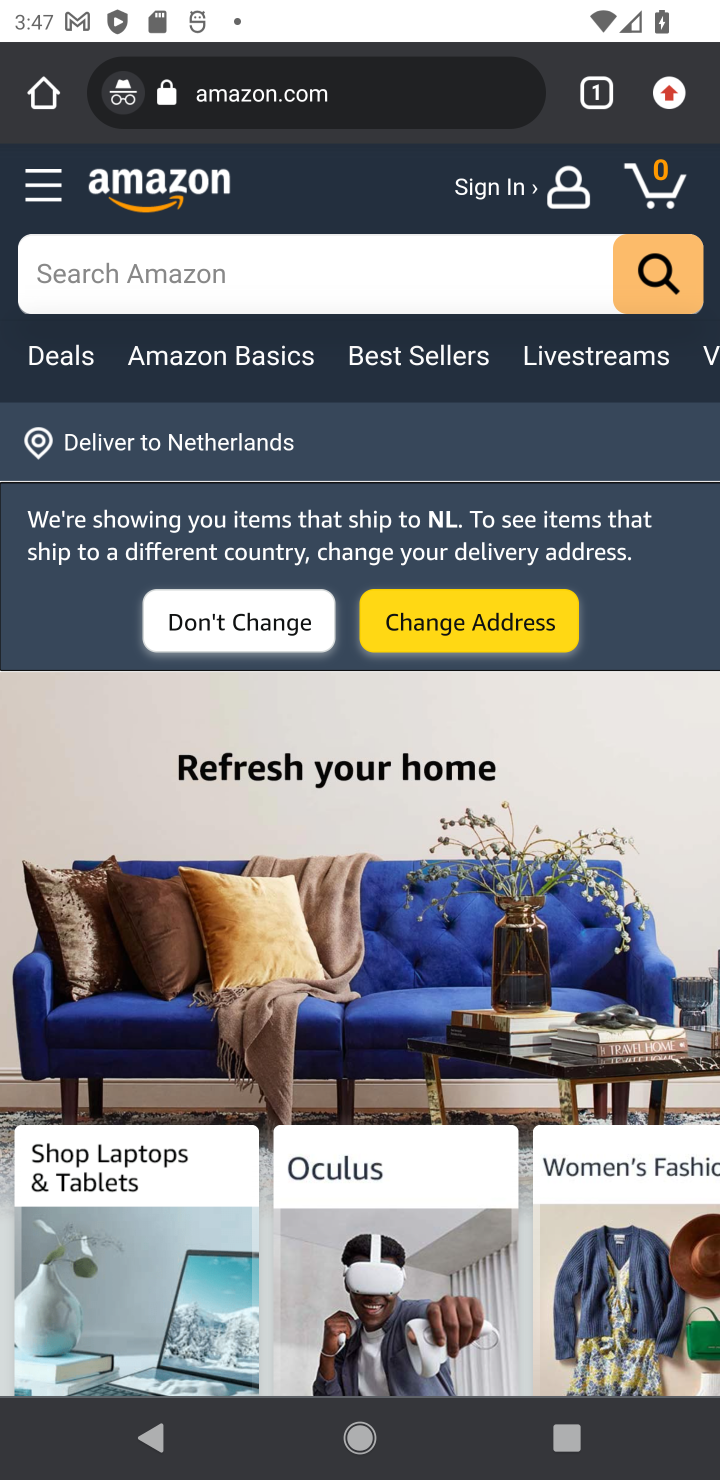
Step 35: click (657, 114)
Your task to perform on an android device: refresh tabs in the chrome app Image 36: 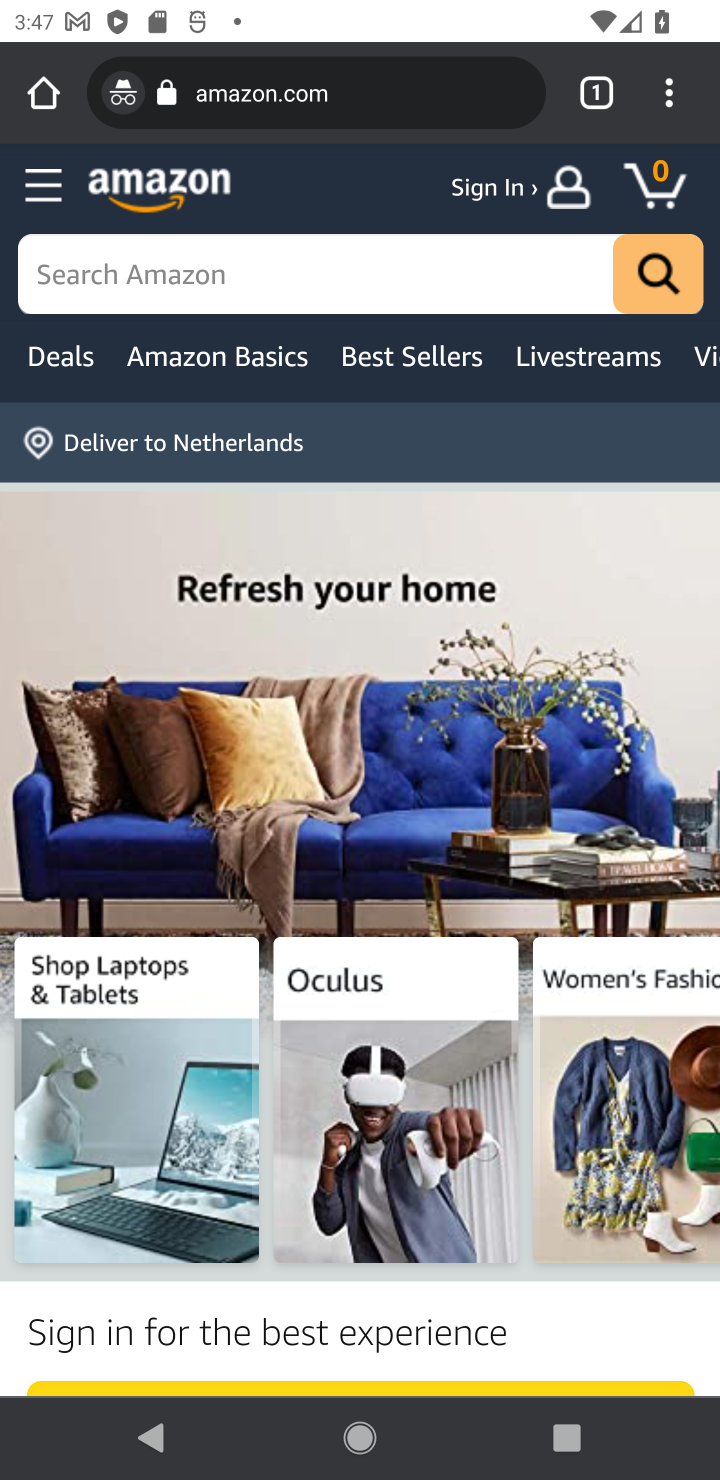
Step 36: click (690, 83)
Your task to perform on an android device: refresh tabs in the chrome app Image 37: 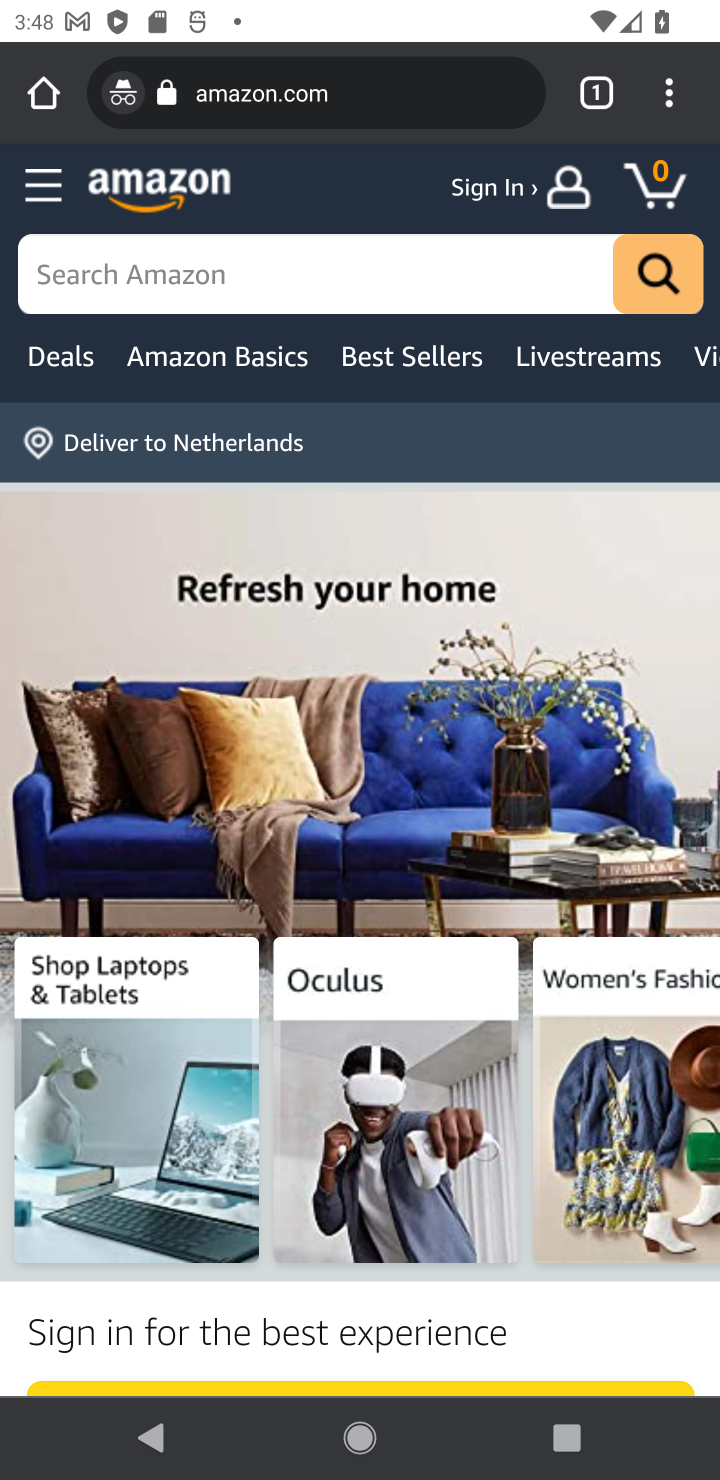
Step 37: click (676, 98)
Your task to perform on an android device: refresh tabs in the chrome app Image 38: 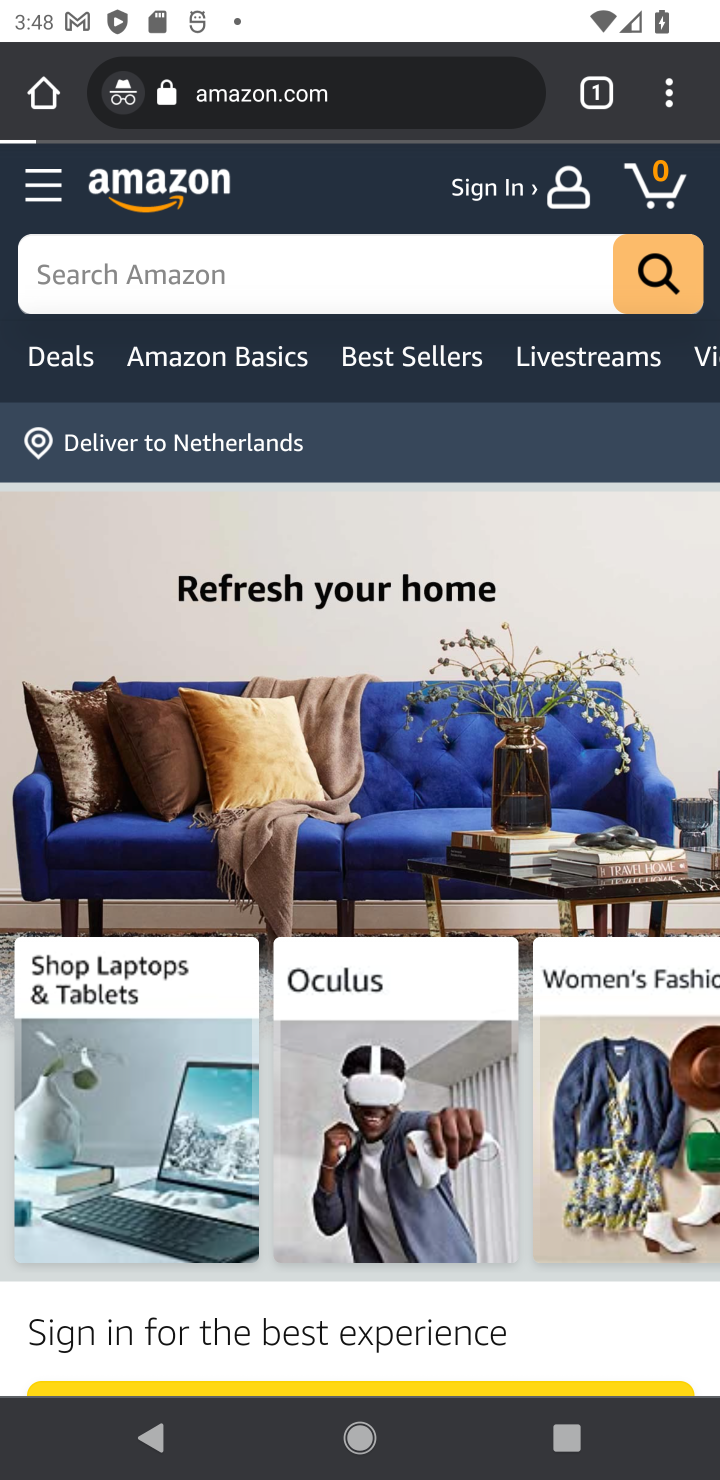
Step 38: click (676, 98)
Your task to perform on an android device: refresh tabs in the chrome app Image 39: 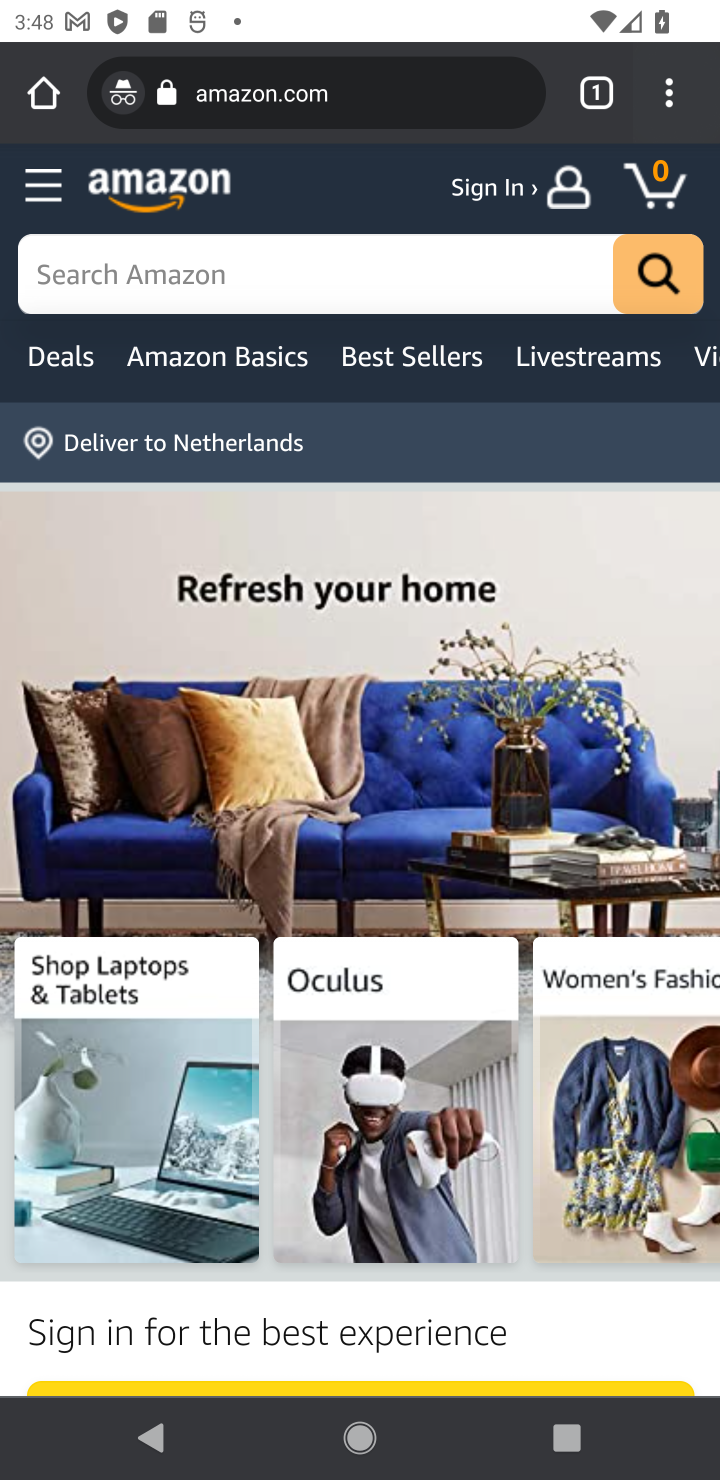
Step 39: click (676, 98)
Your task to perform on an android device: refresh tabs in the chrome app Image 40: 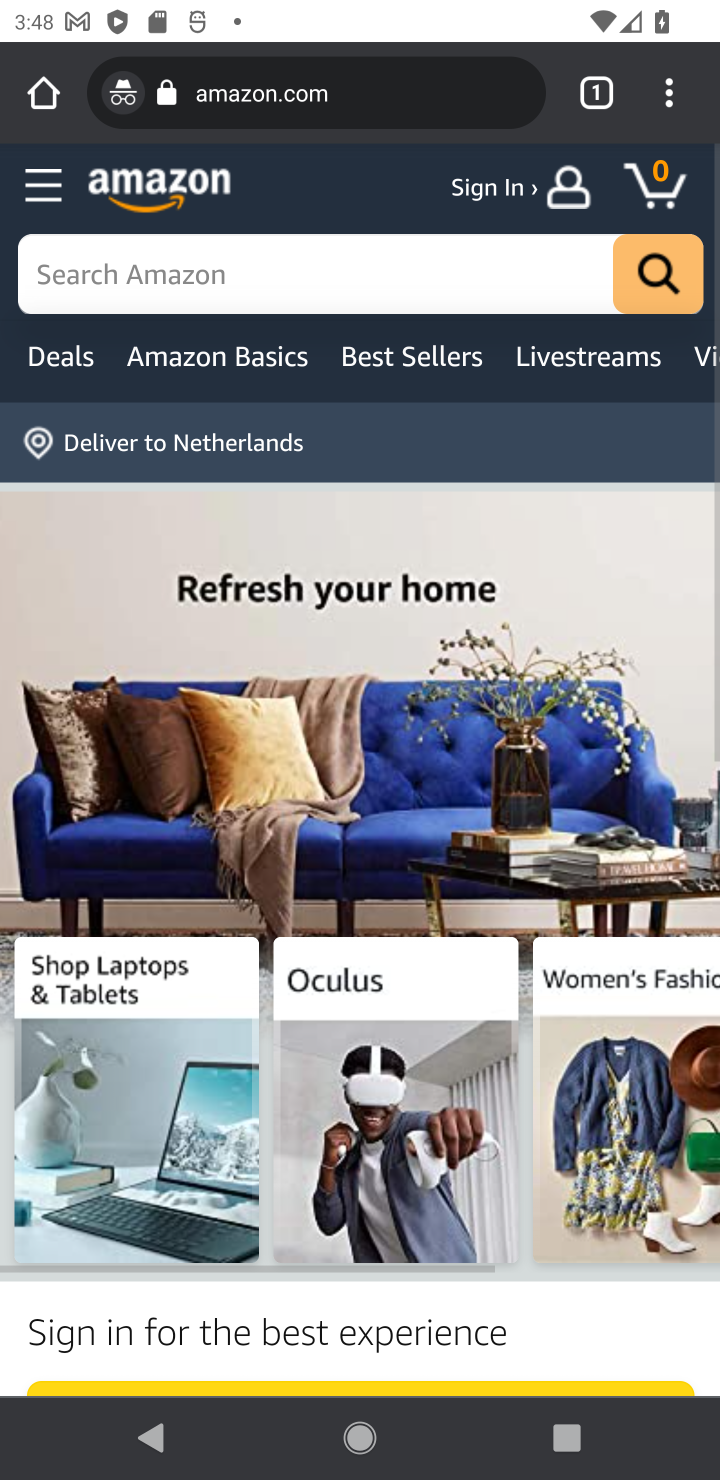
Step 40: click (657, 102)
Your task to perform on an android device: refresh tabs in the chrome app Image 41: 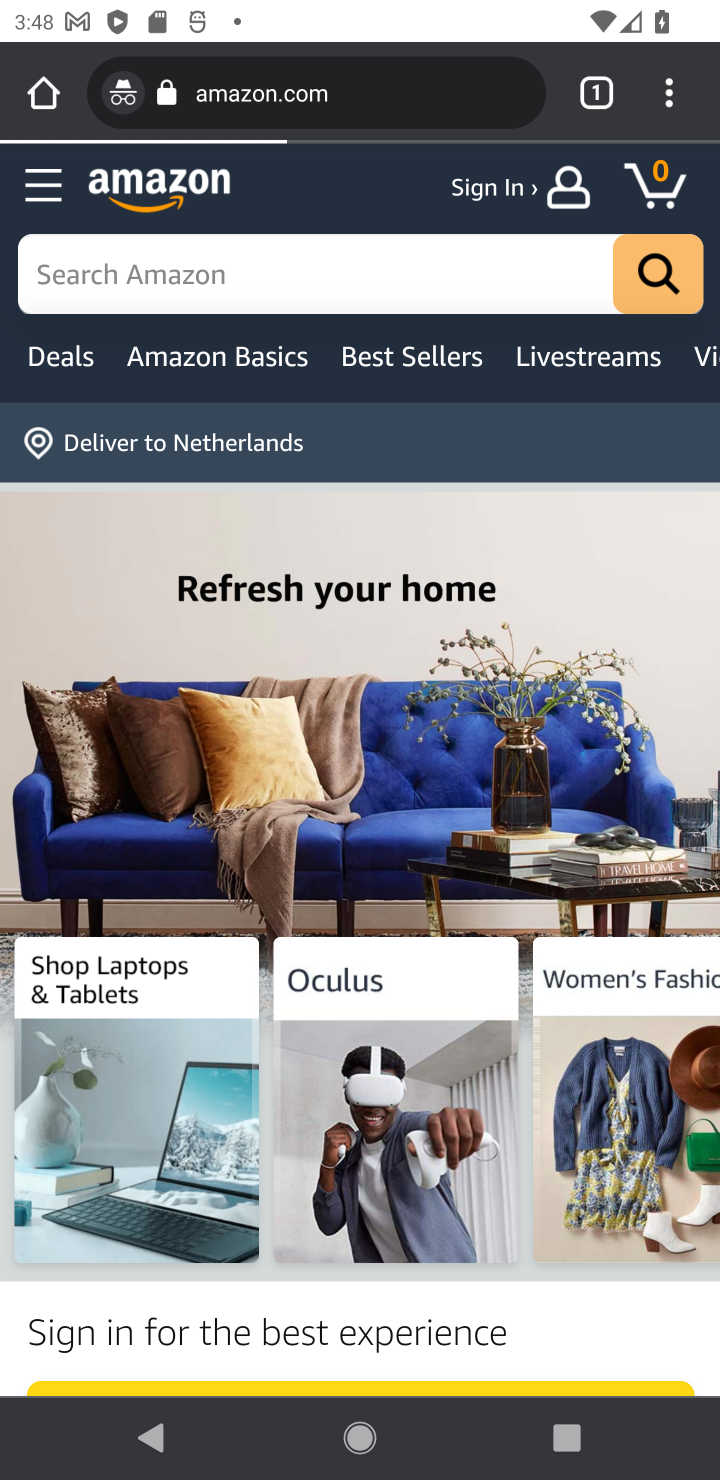
Step 41: click (659, 94)
Your task to perform on an android device: refresh tabs in the chrome app Image 42: 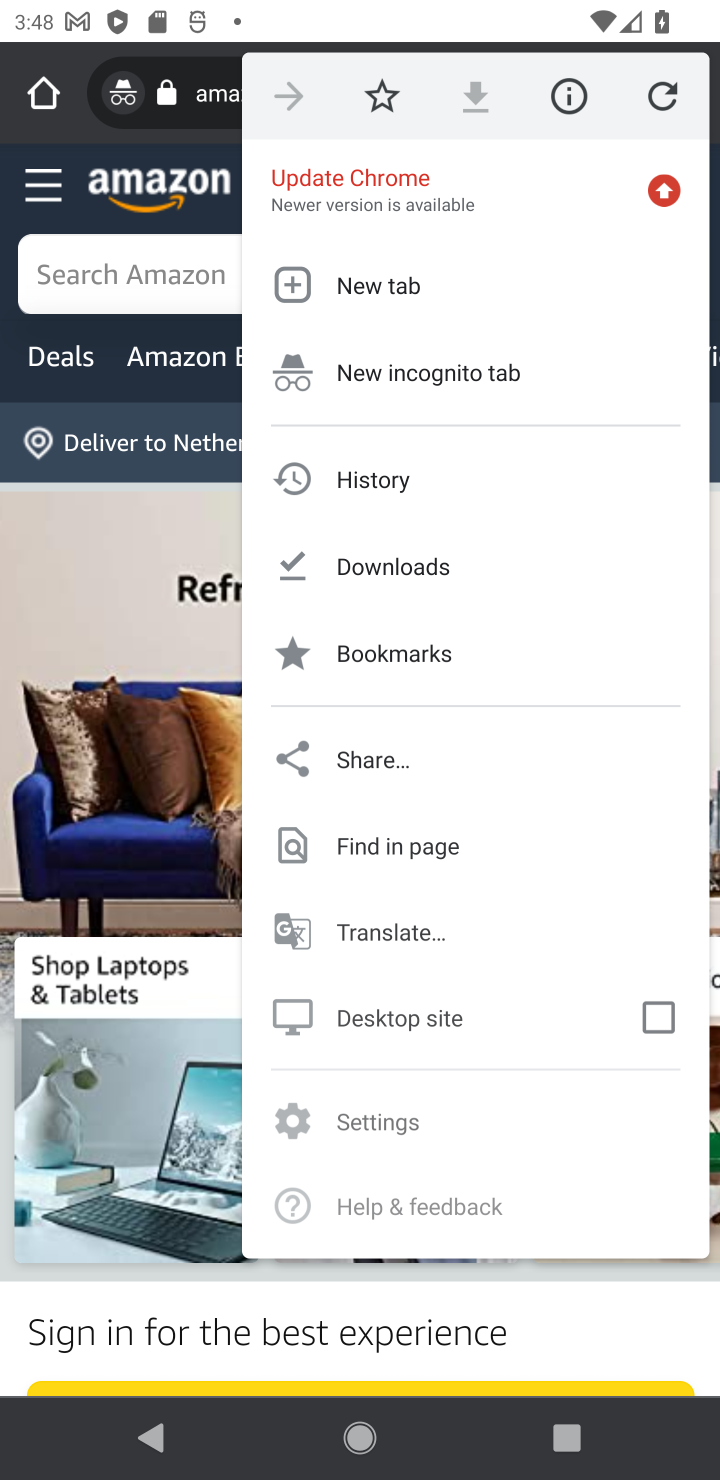
Step 42: click (667, 102)
Your task to perform on an android device: refresh tabs in the chrome app Image 43: 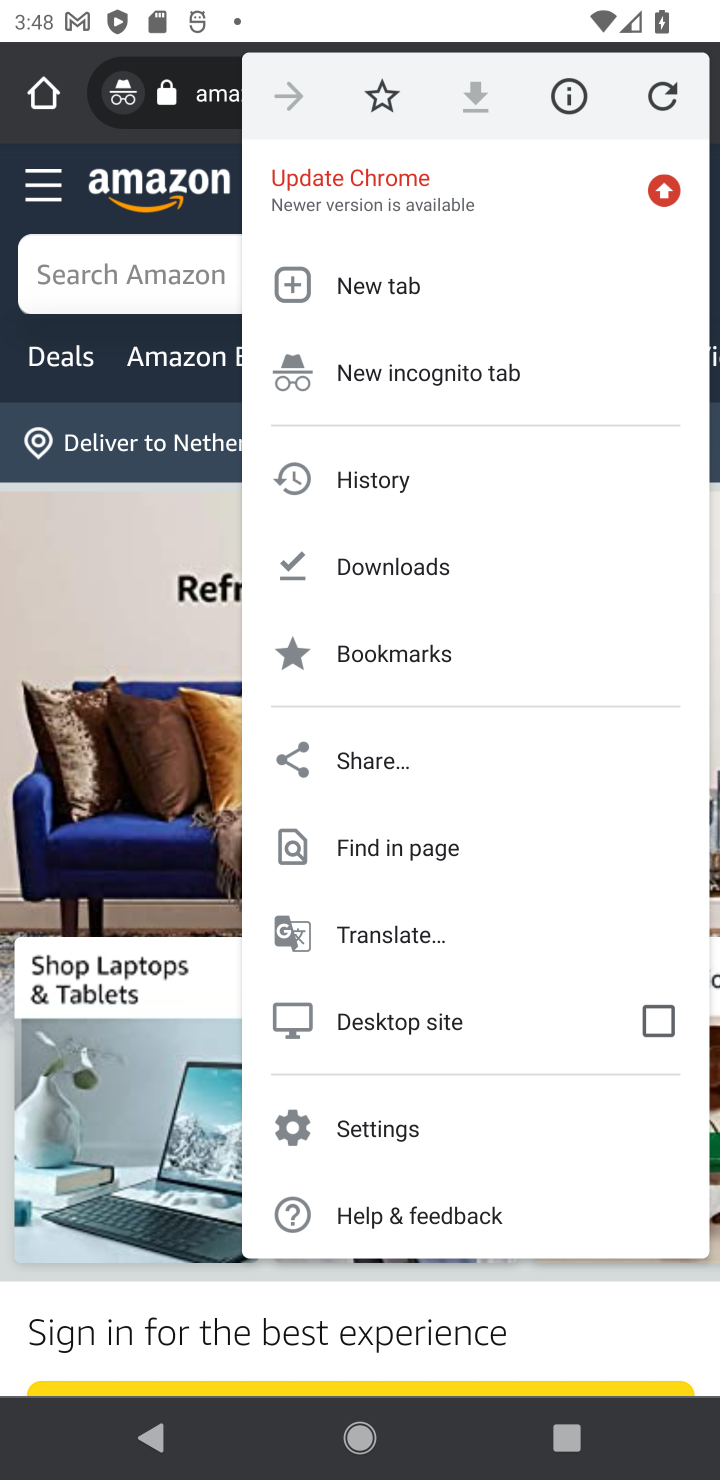
Step 43: click (667, 102)
Your task to perform on an android device: refresh tabs in the chrome app Image 44: 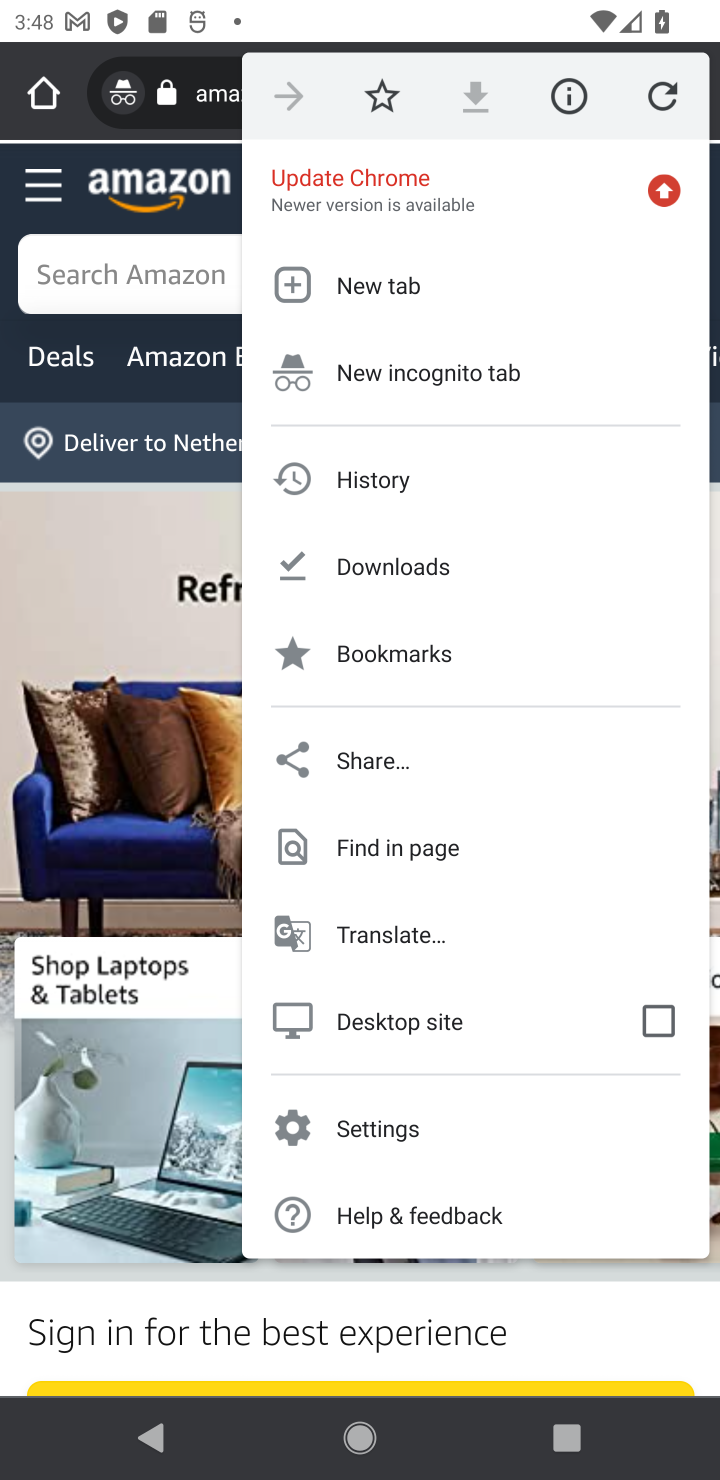
Step 44: task complete